Your task to perform on an android device: Show the shopping cart on bestbuy.com. Add logitech g502 to the cart on bestbuy.com, then select checkout. Image 0: 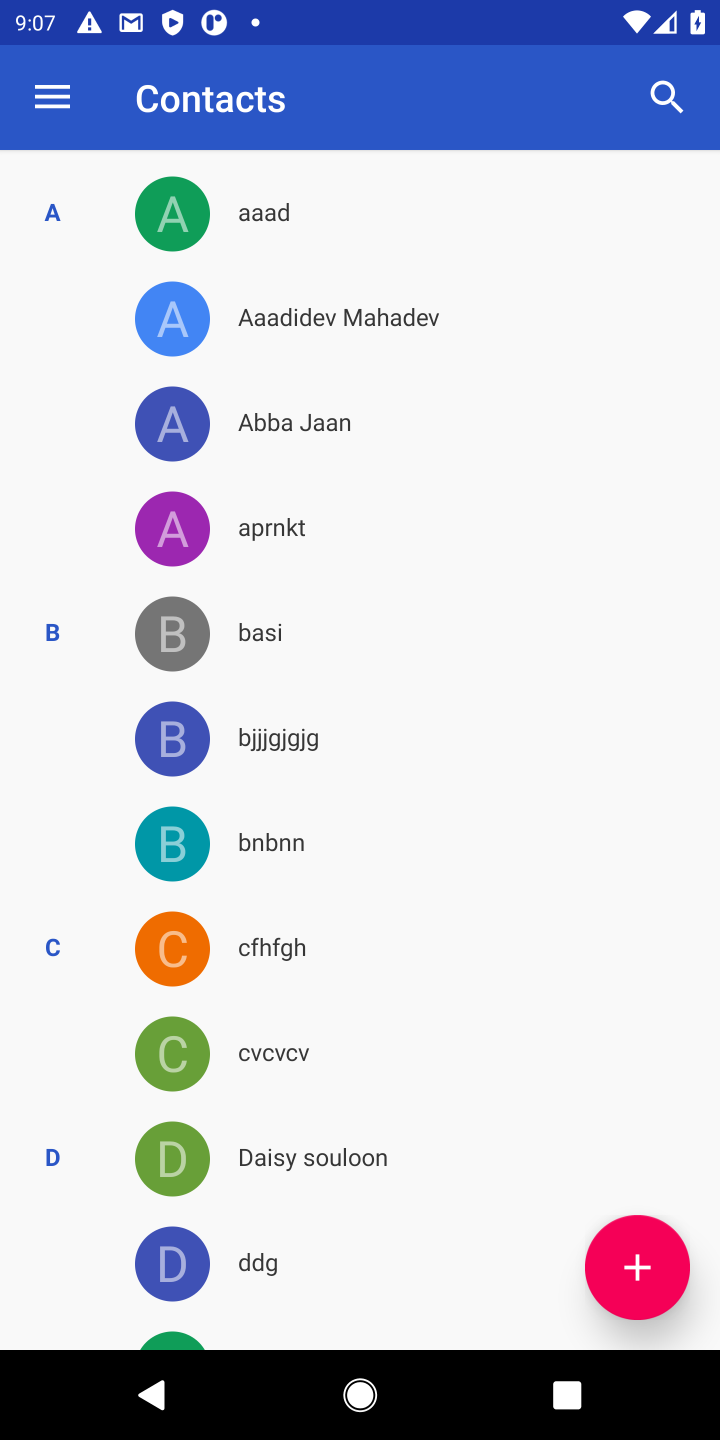
Step 0: press home button
Your task to perform on an android device: Show the shopping cart on bestbuy.com. Add logitech g502 to the cart on bestbuy.com, then select checkout. Image 1: 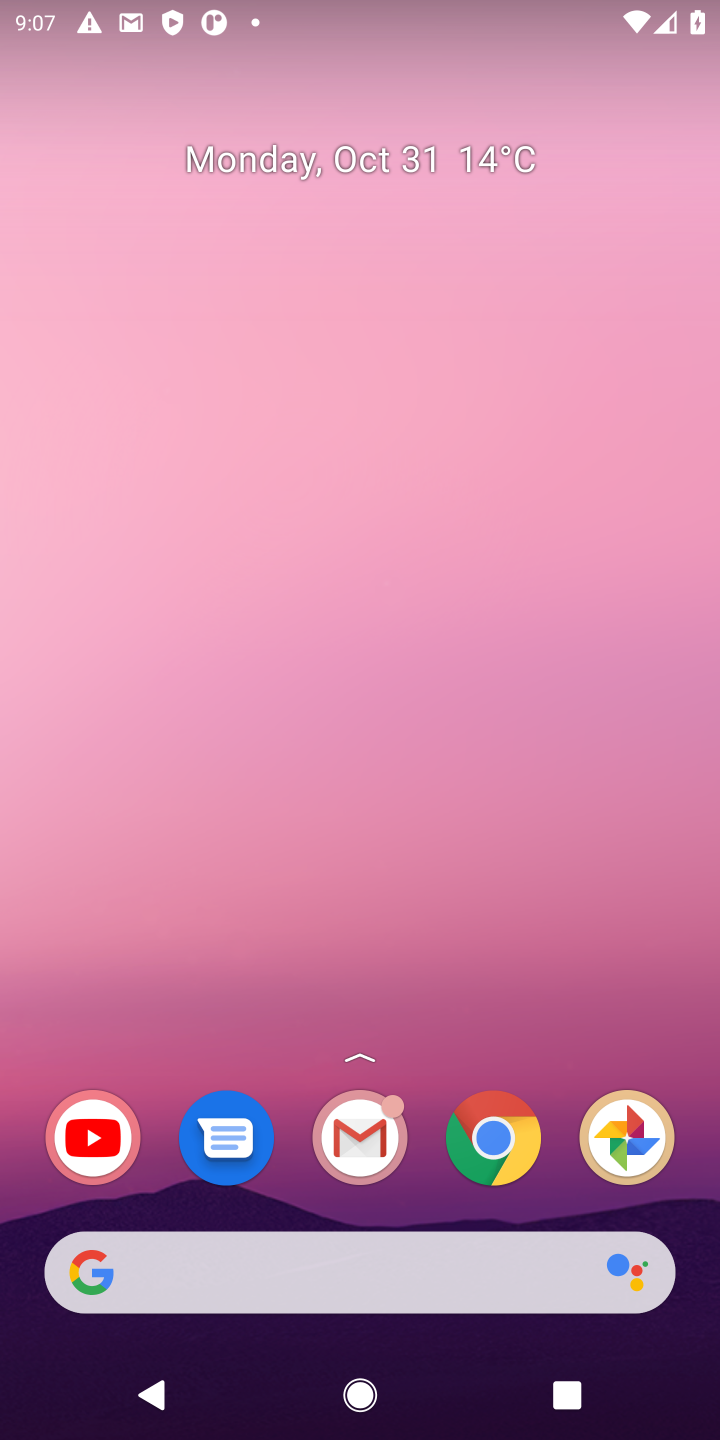
Step 1: click (495, 1147)
Your task to perform on an android device: Show the shopping cart on bestbuy.com. Add logitech g502 to the cart on bestbuy.com, then select checkout. Image 2: 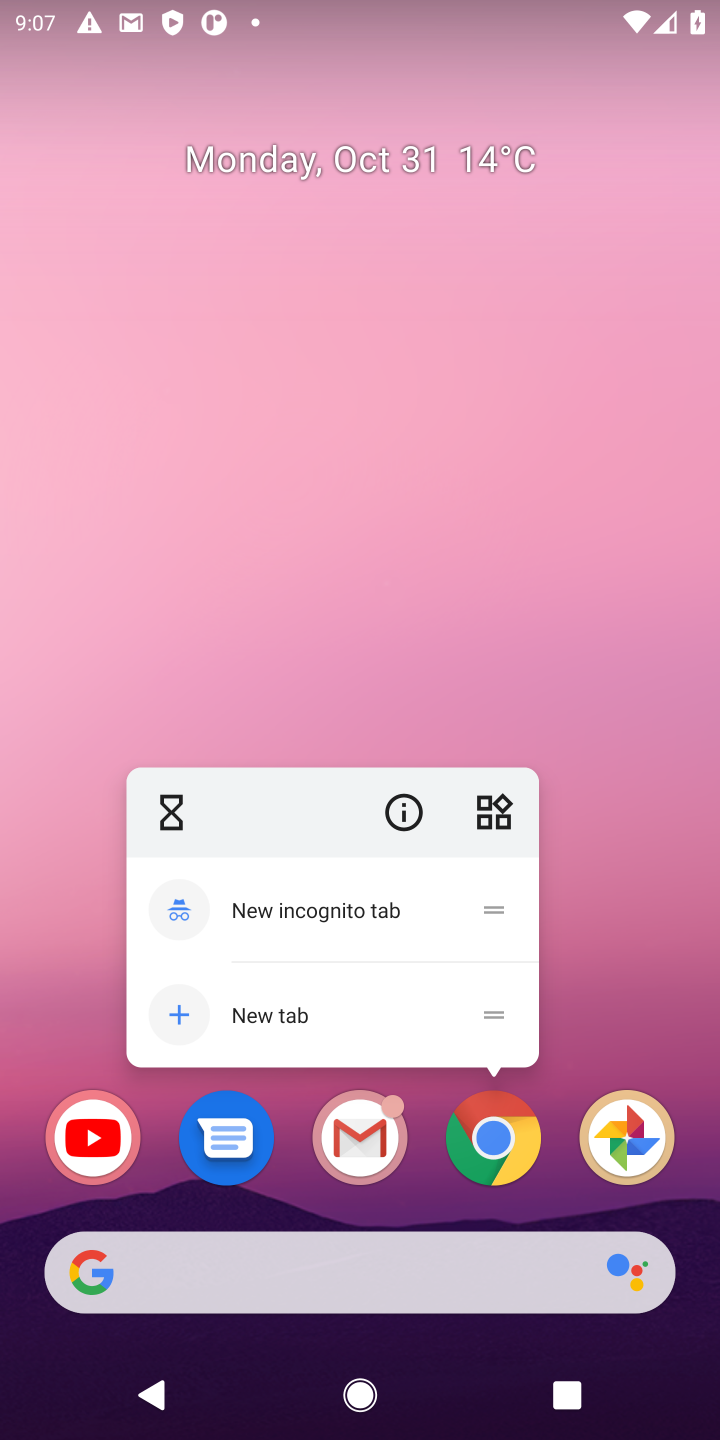
Step 2: click (502, 1152)
Your task to perform on an android device: Show the shopping cart on bestbuy.com. Add logitech g502 to the cart on bestbuy.com, then select checkout. Image 3: 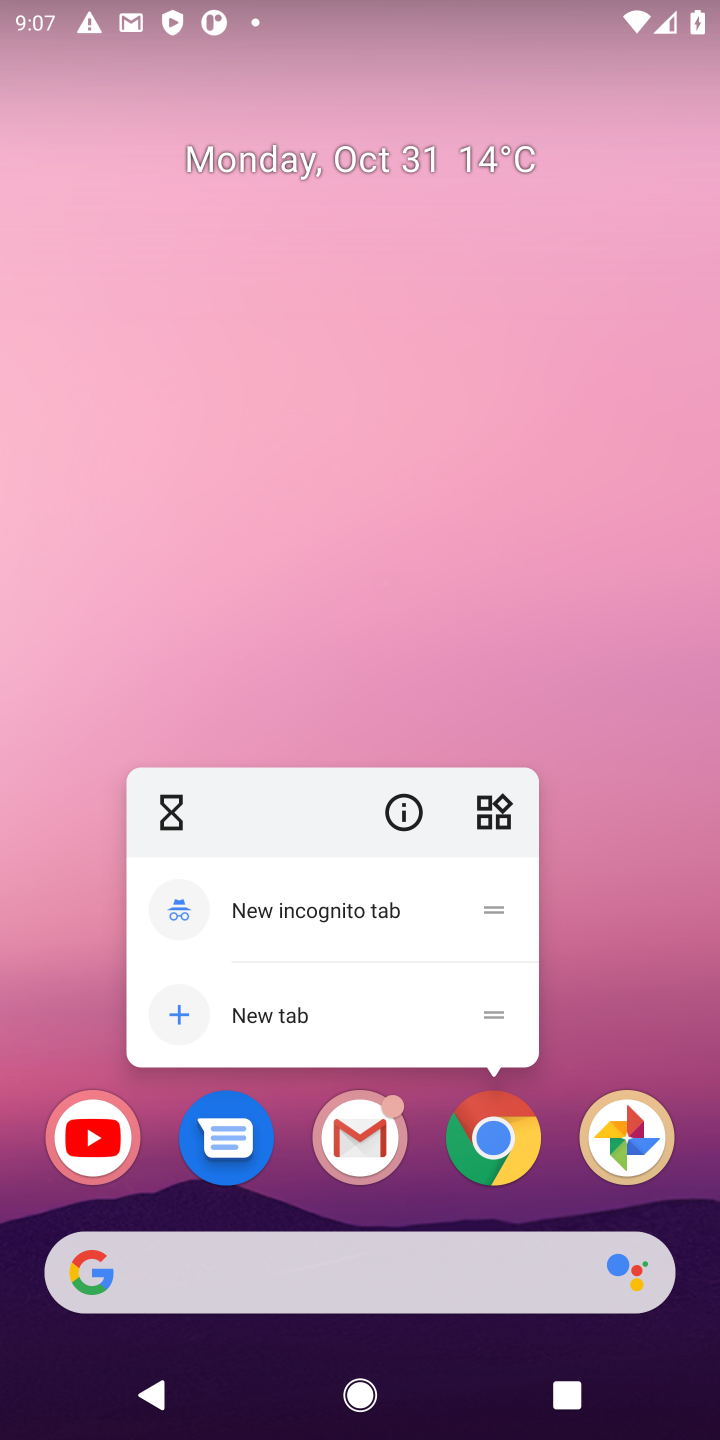
Step 3: press home button
Your task to perform on an android device: Show the shopping cart on bestbuy.com. Add logitech g502 to the cart on bestbuy.com, then select checkout. Image 4: 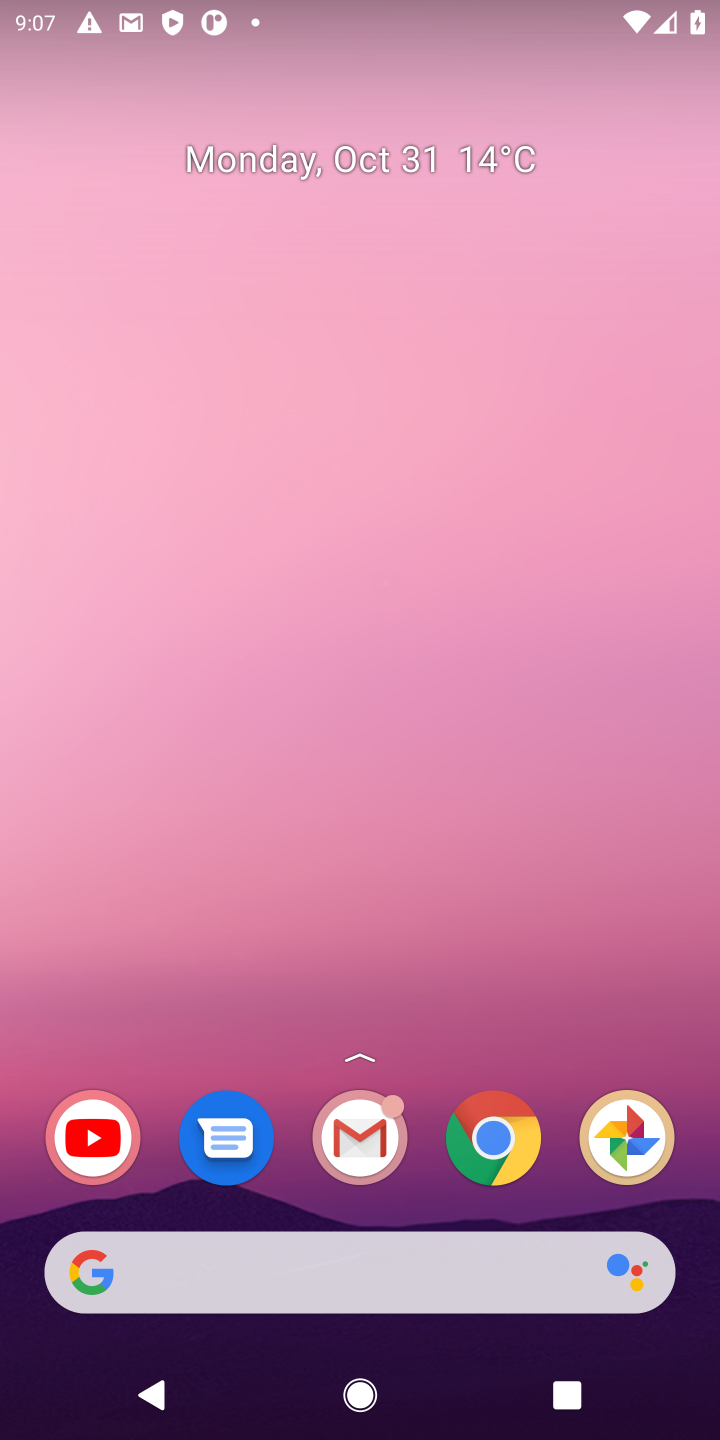
Step 4: press home button
Your task to perform on an android device: Show the shopping cart on bestbuy.com. Add logitech g502 to the cart on bestbuy.com, then select checkout. Image 5: 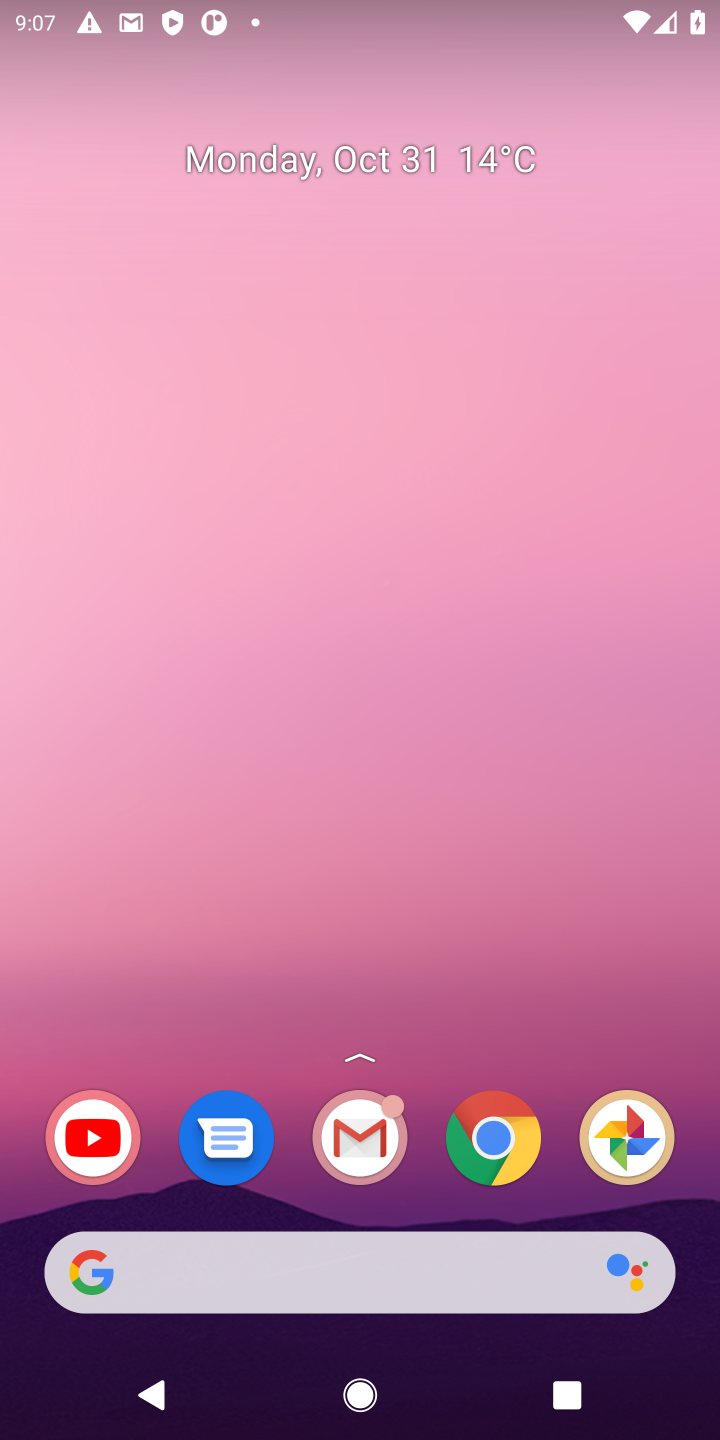
Step 5: press home button
Your task to perform on an android device: Show the shopping cart on bestbuy.com. Add logitech g502 to the cart on bestbuy.com, then select checkout. Image 6: 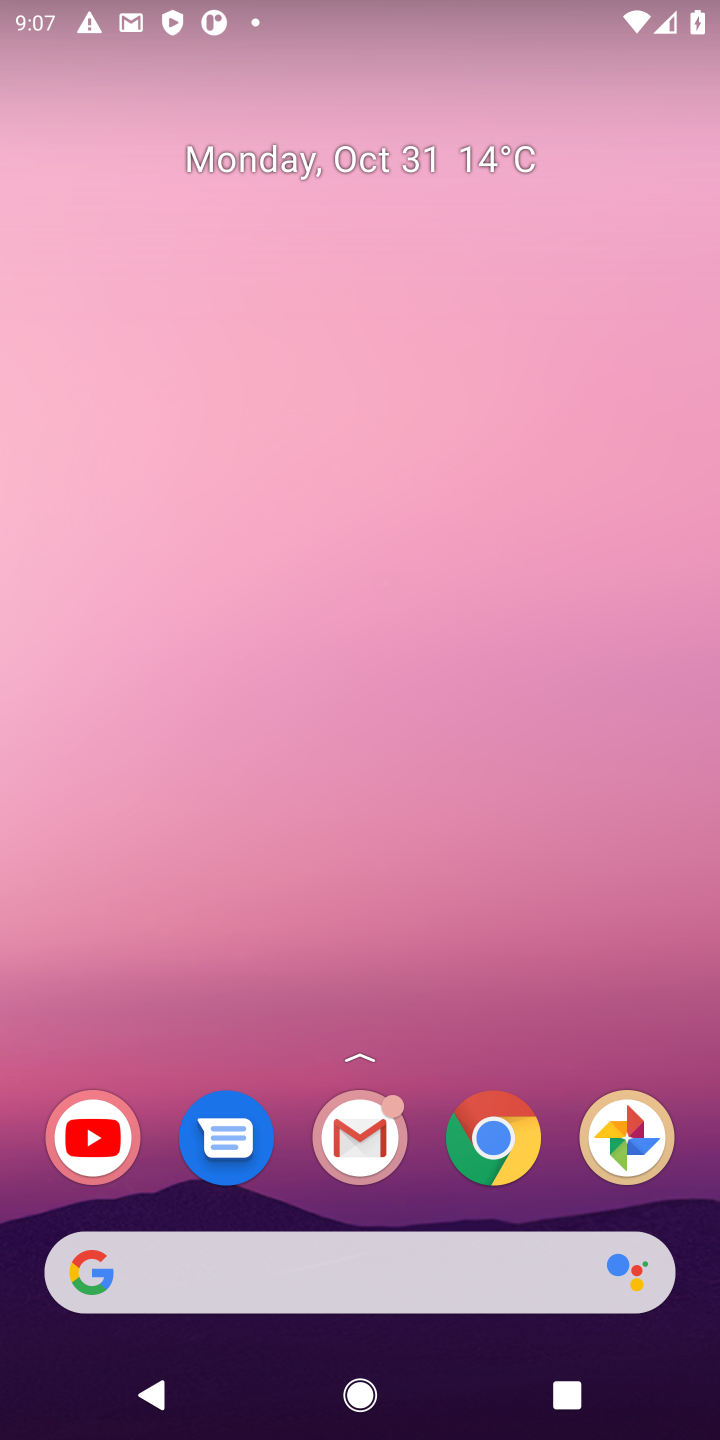
Step 6: click (497, 1130)
Your task to perform on an android device: Show the shopping cart on bestbuy.com. Add logitech g502 to the cart on bestbuy.com, then select checkout. Image 7: 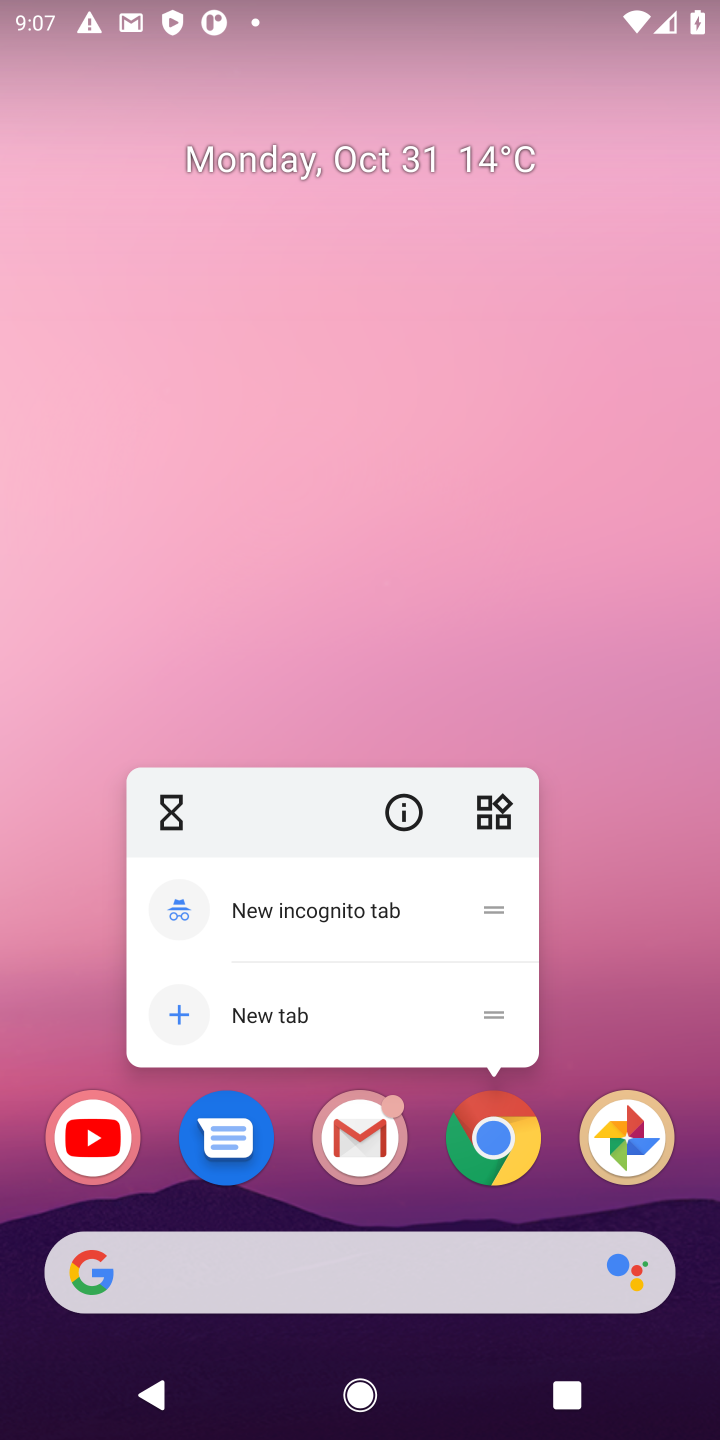
Step 7: click (493, 1130)
Your task to perform on an android device: Show the shopping cart on bestbuy.com. Add logitech g502 to the cart on bestbuy.com, then select checkout. Image 8: 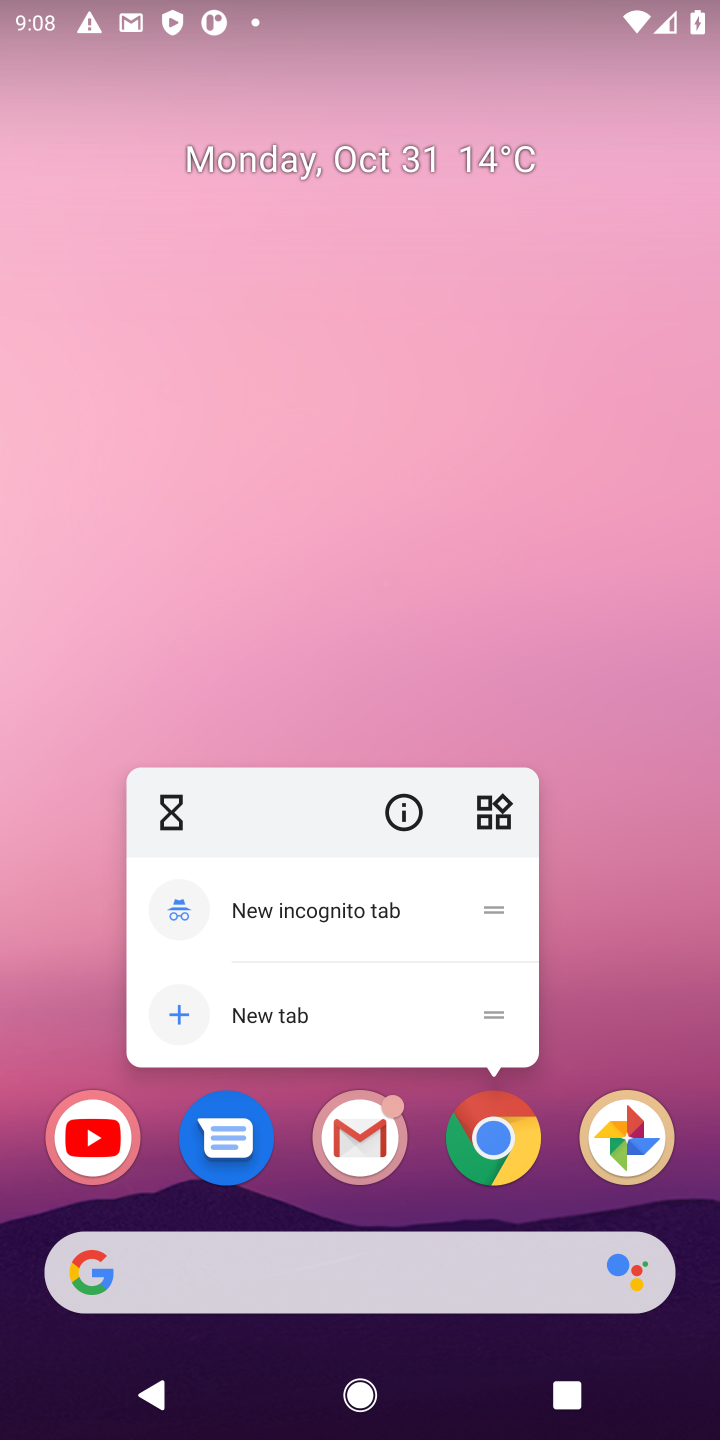
Step 8: press back button
Your task to perform on an android device: Show the shopping cart on bestbuy.com. Add logitech g502 to the cart on bestbuy.com, then select checkout. Image 9: 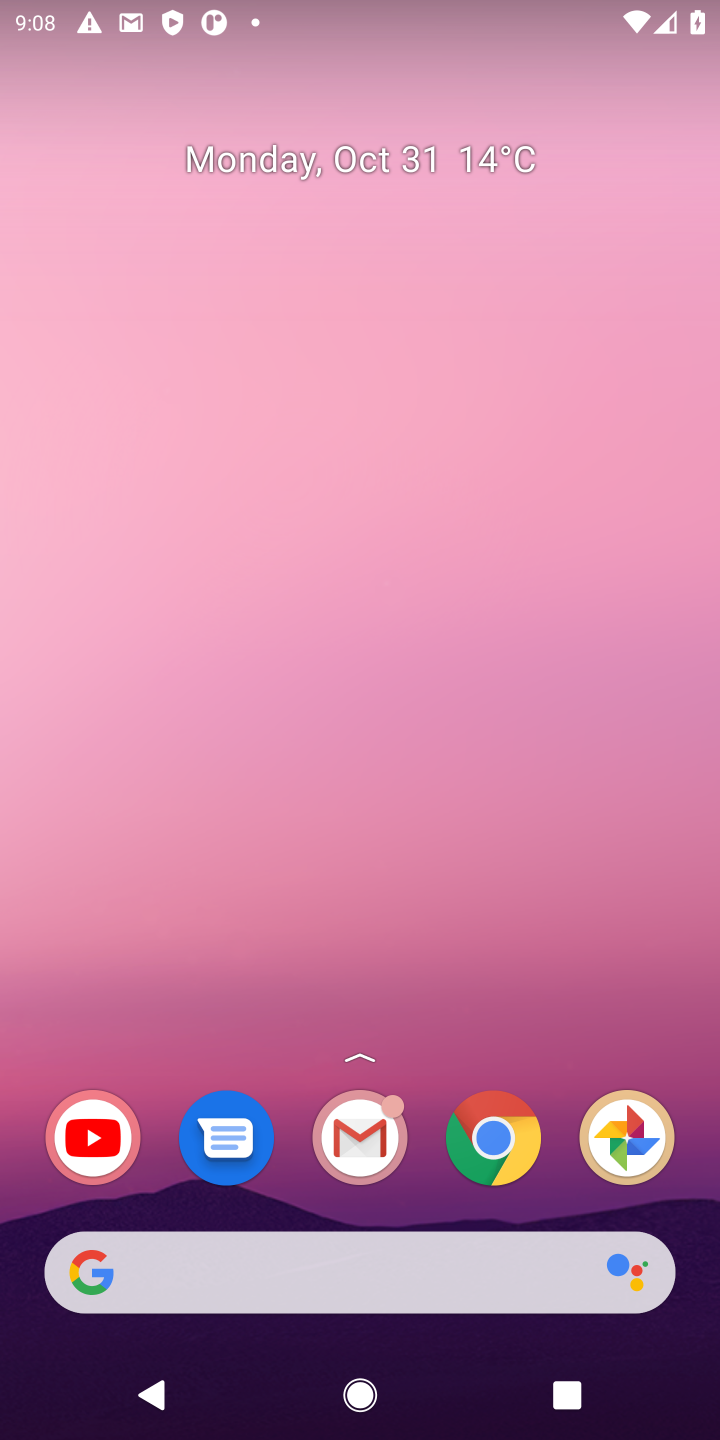
Step 9: press back button
Your task to perform on an android device: Show the shopping cart on bestbuy.com. Add logitech g502 to the cart on bestbuy.com, then select checkout. Image 10: 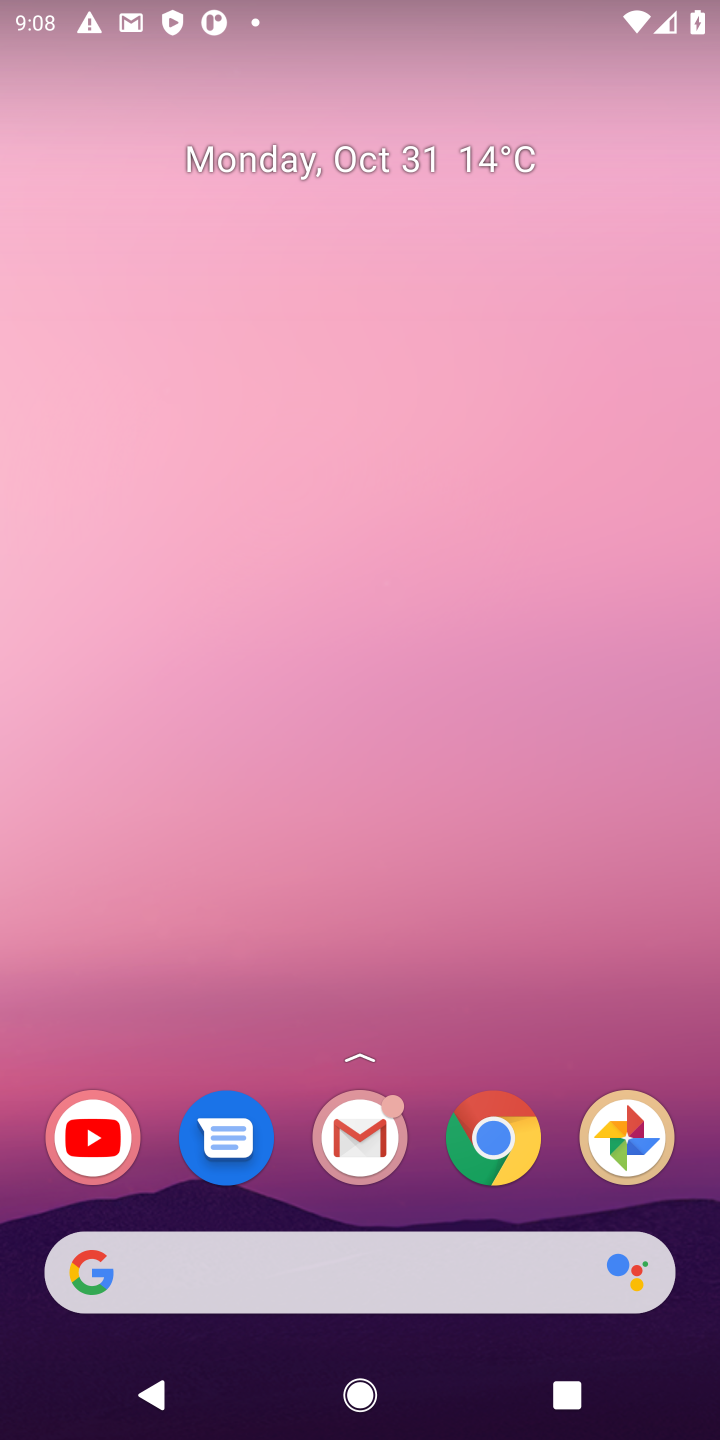
Step 10: press back button
Your task to perform on an android device: Show the shopping cart on bestbuy.com. Add logitech g502 to the cart on bestbuy.com, then select checkout. Image 11: 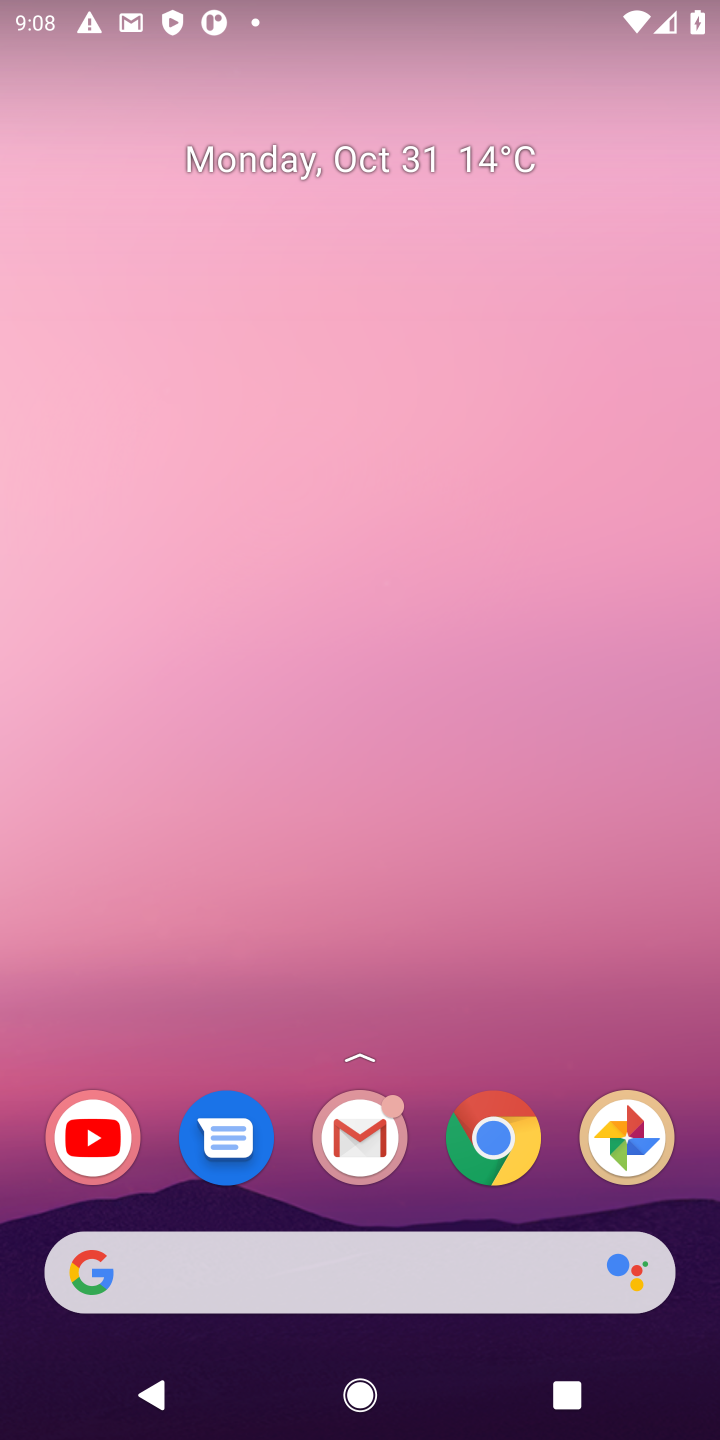
Step 11: press home button
Your task to perform on an android device: Show the shopping cart on bestbuy.com. Add logitech g502 to the cart on bestbuy.com, then select checkout. Image 12: 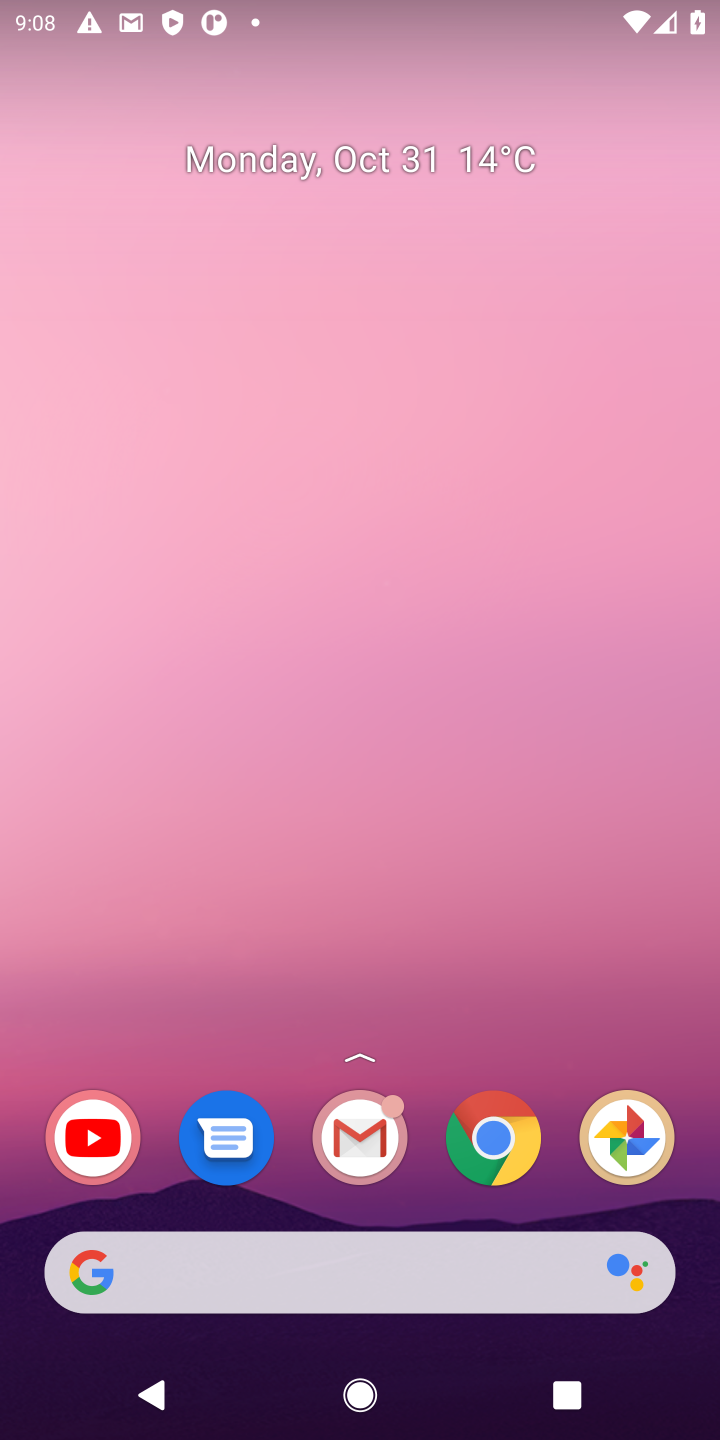
Step 12: press home button
Your task to perform on an android device: Show the shopping cart on bestbuy.com. Add logitech g502 to the cart on bestbuy.com, then select checkout. Image 13: 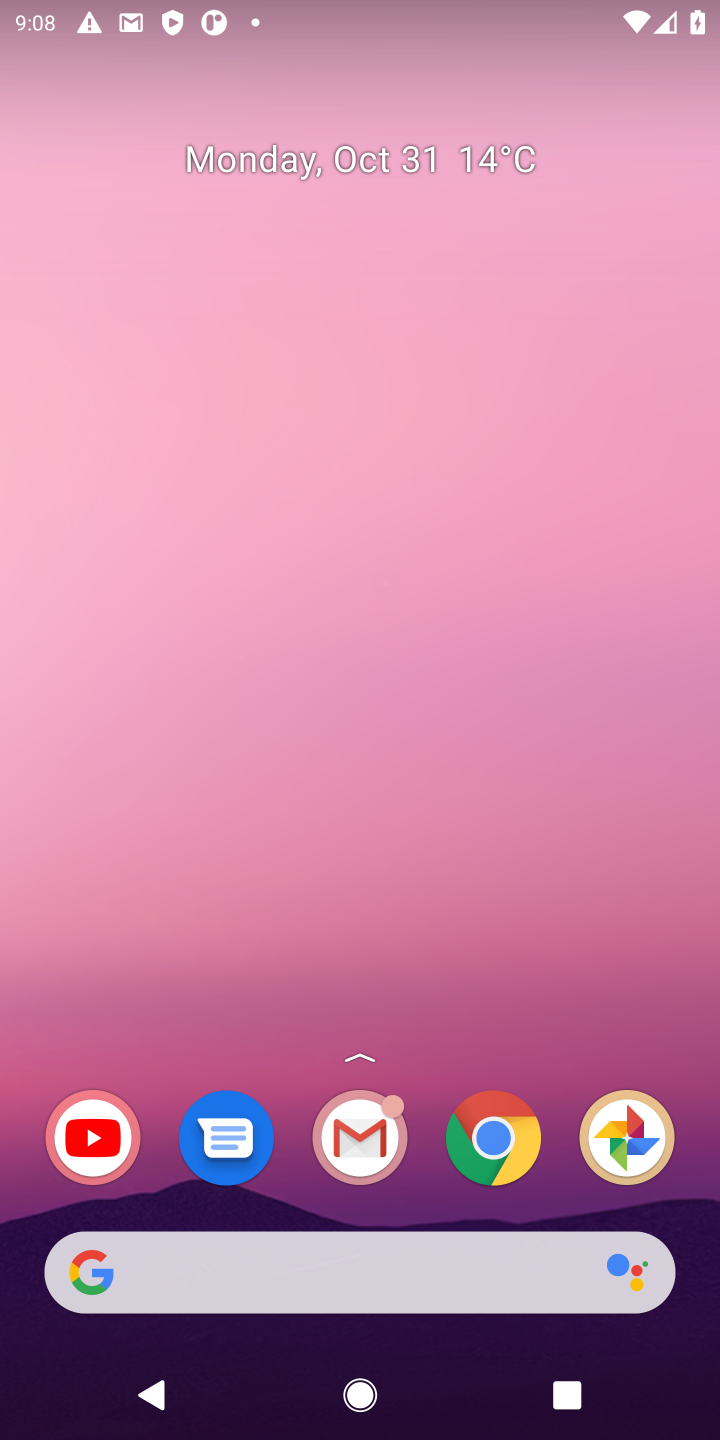
Step 13: click (491, 1160)
Your task to perform on an android device: Show the shopping cart on bestbuy.com. Add logitech g502 to the cart on bestbuy.com, then select checkout. Image 14: 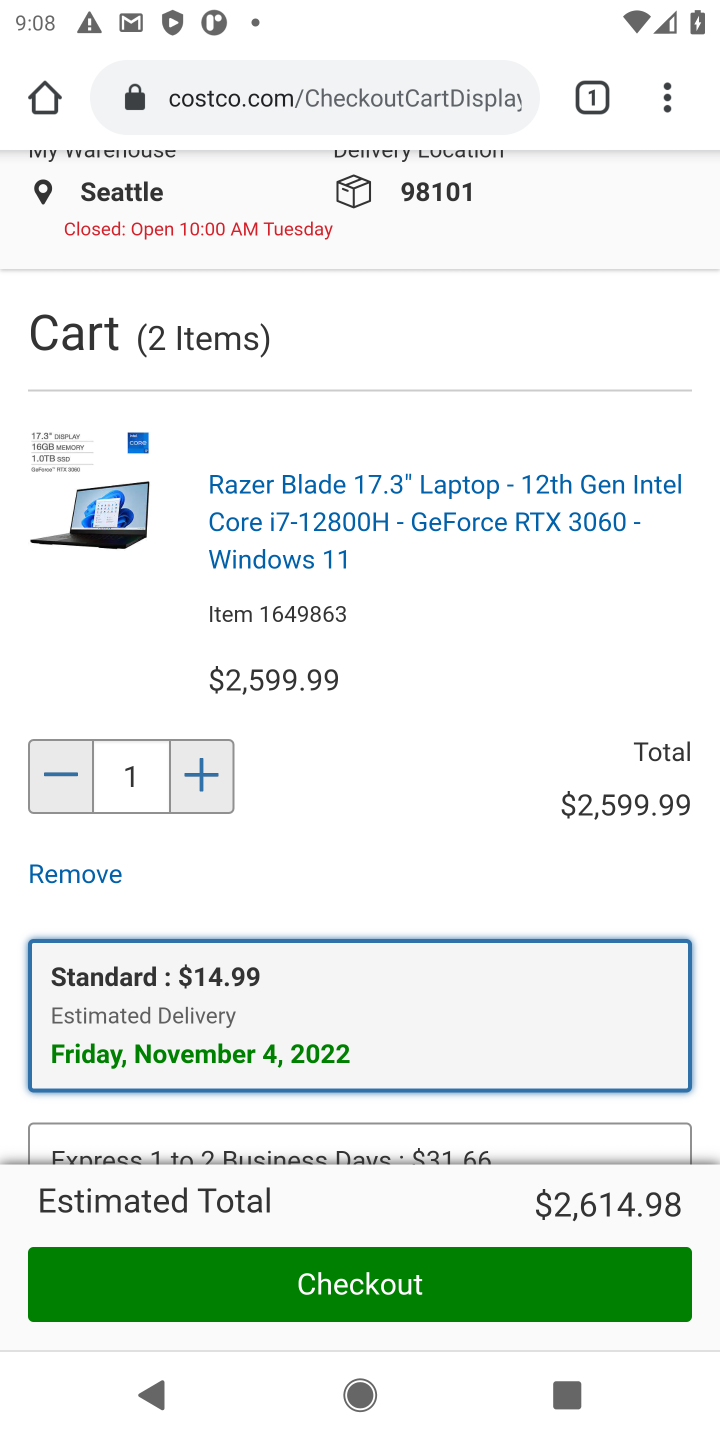
Step 14: click (276, 83)
Your task to perform on an android device: Show the shopping cart on bestbuy.com. Add logitech g502 to the cart on bestbuy.com, then select checkout. Image 15: 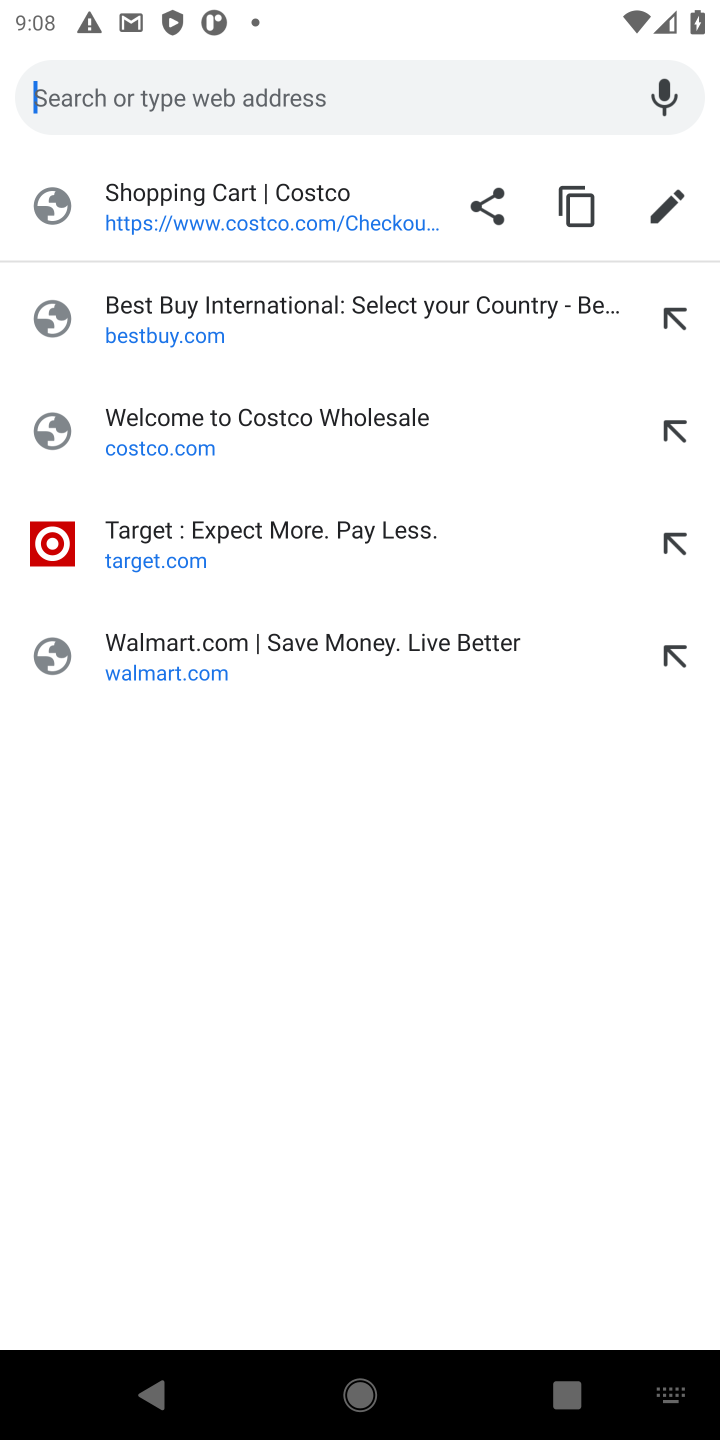
Step 15: type "best buy.com"
Your task to perform on an android device: Show the shopping cart on bestbuy.com. Add logitech g502 to the cart on bestbuy.com, then select checkout. Image 16: 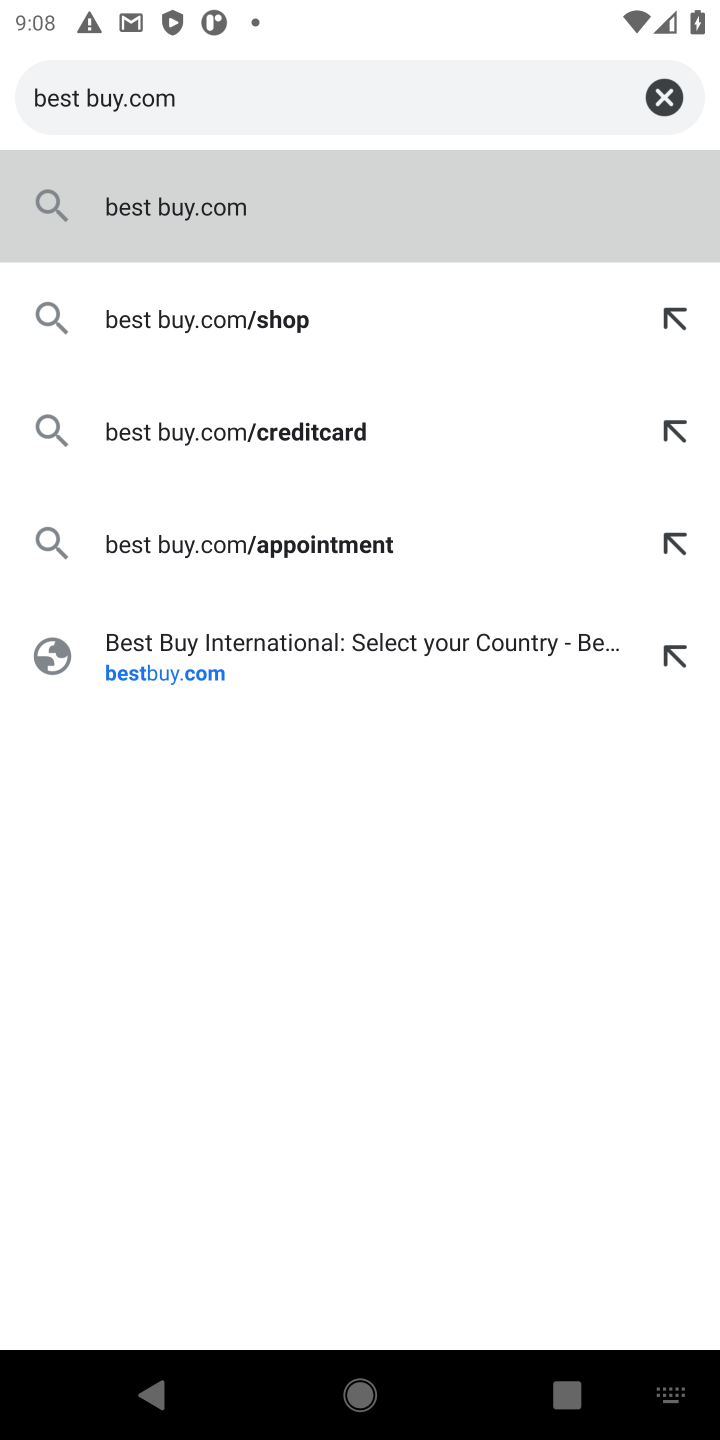
Step 16: click (165, 664)
Your task to perform on an android device: Show the shopping cart on bestbuy.com. Add logitech g502 to the cart on bestbuy.com, then select checkout. Image 17: 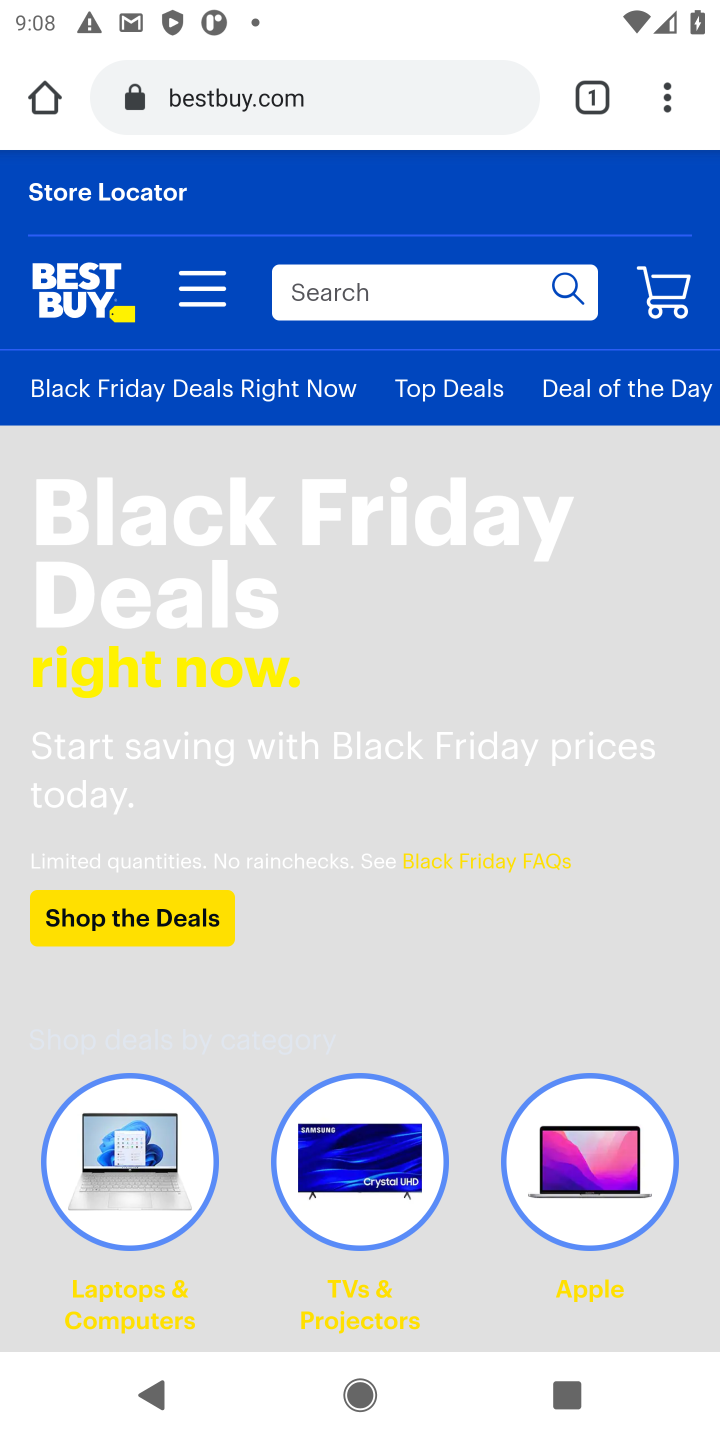
Step 17: click (310, 294)
Your task to perform on an android device: Show the shopping cart on bestbuy.com. Add logitech g502 to the cart on bestbuy.com, then select checkout. Image 18: 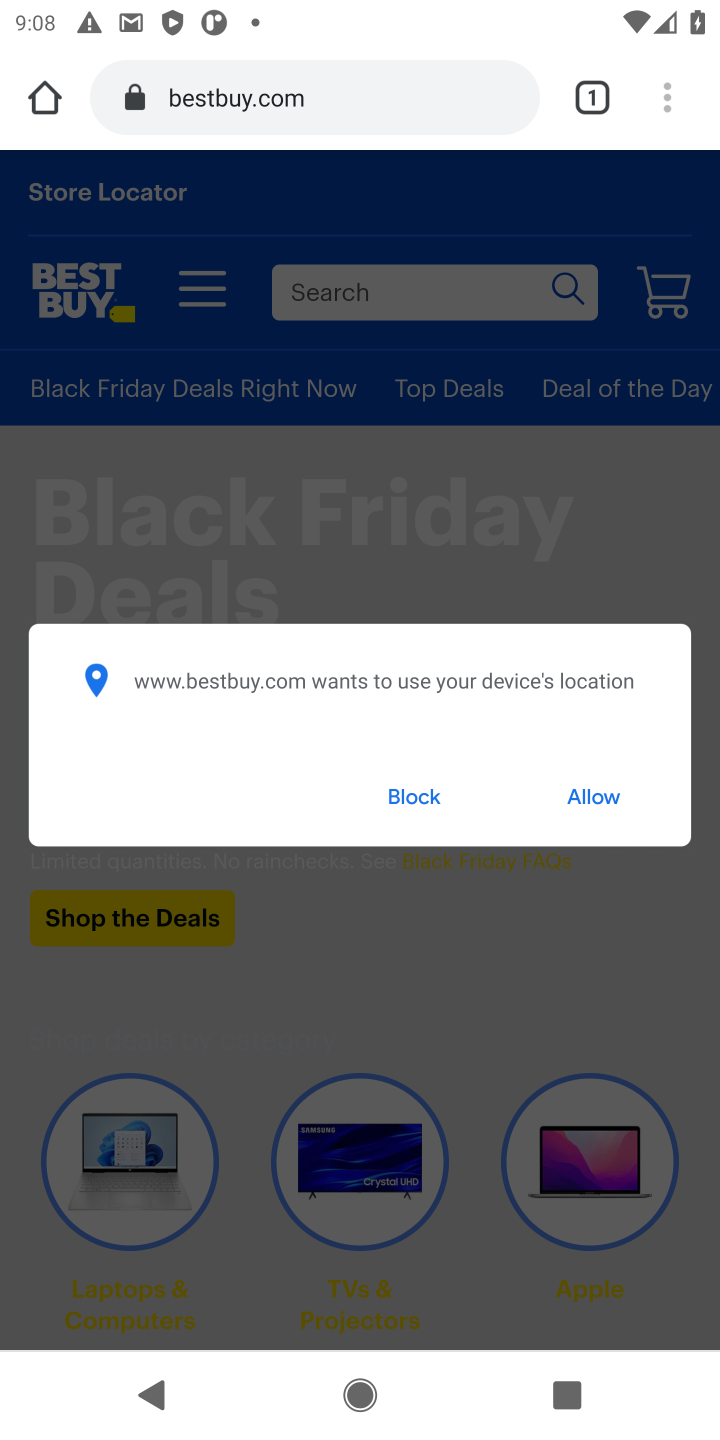
Step 18: click (586, 798)
Your task to perform on an android device: Show the shopping cart on bestbuy.com. Add logitech g502 to the cart on bestbuy.com, then select checkout. Image 19: 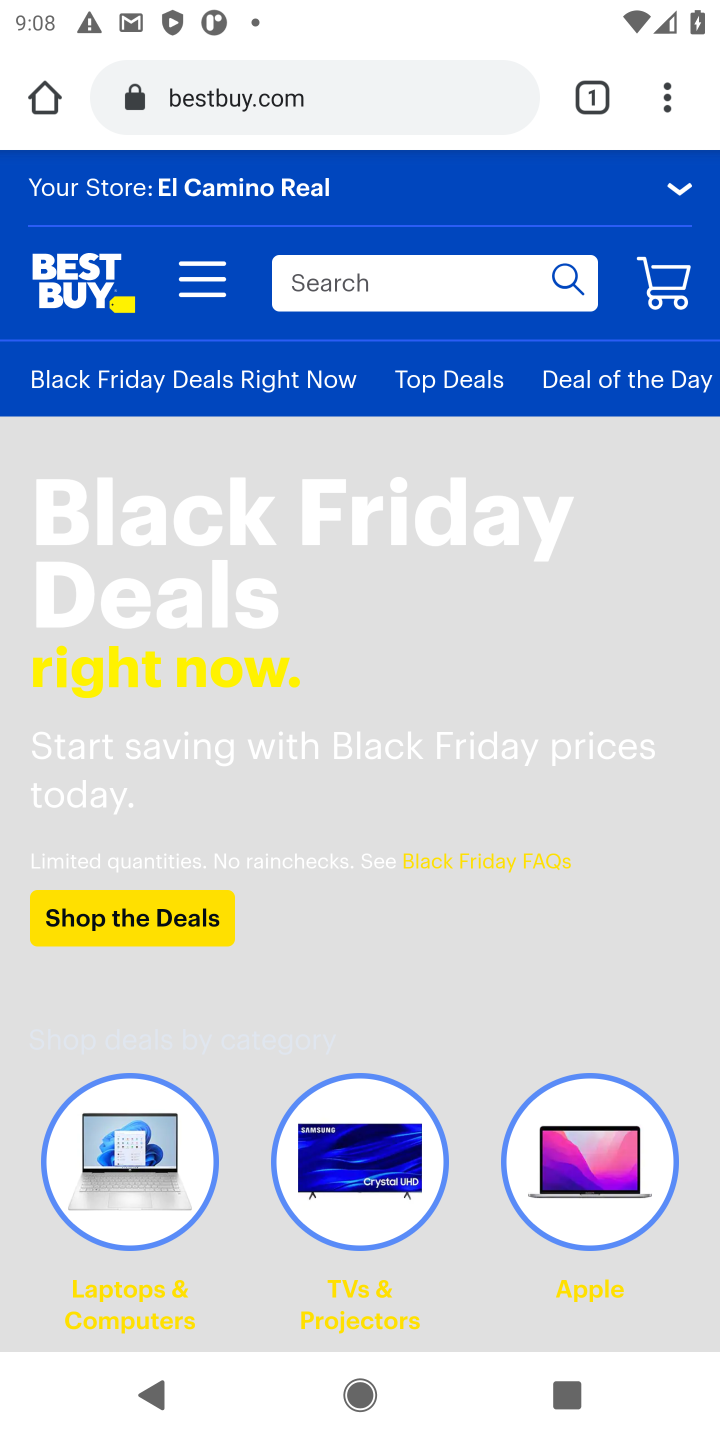
Step 19: click (426, 280)
Your task to perform on an android device: Show the shopping cart on bestbuy.com. Add logitech g502 to the cart on bestbuy.com, then select checkout. Image 20: 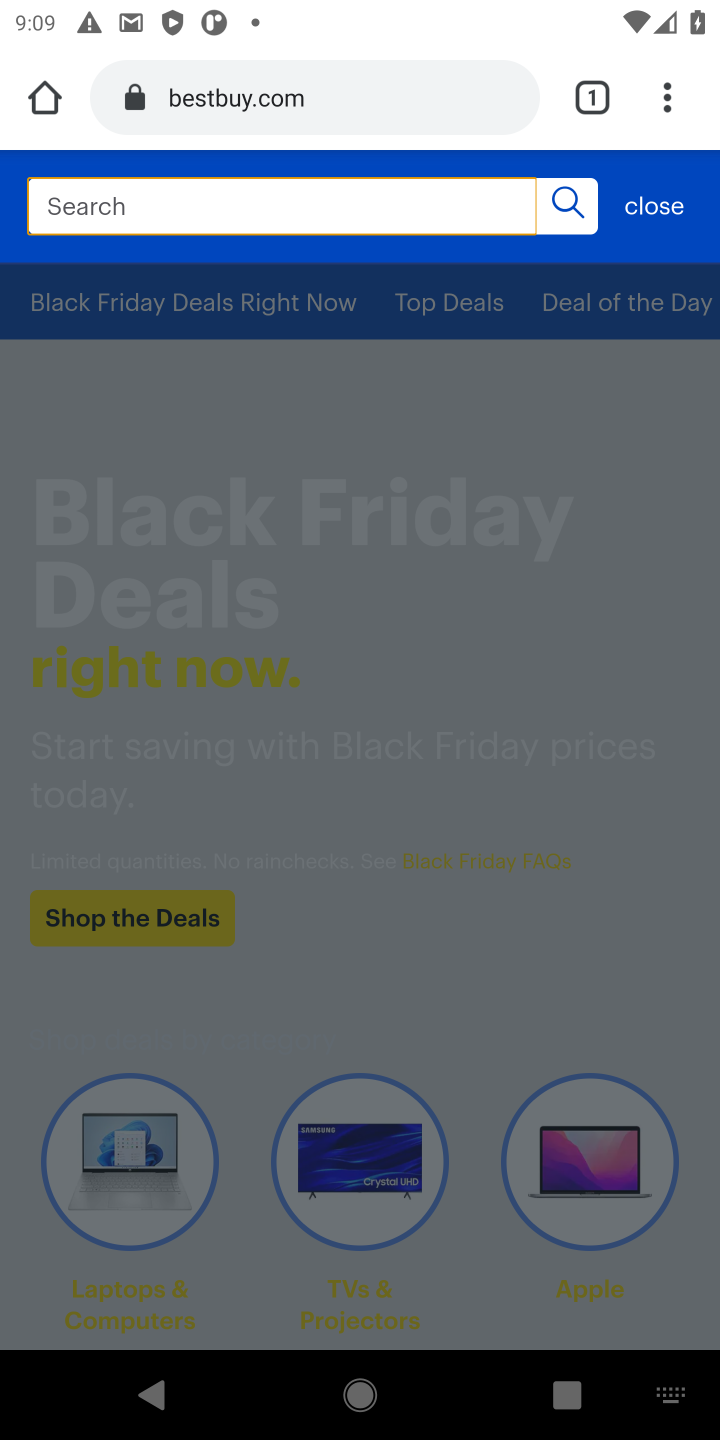
Step 20: type "logitechg502"
Your task to perform on an android device: Show the shopping cart on bestbuy.com. Add logitech g502 to the cart on bestbuy.com, then select checkout. Image 21: 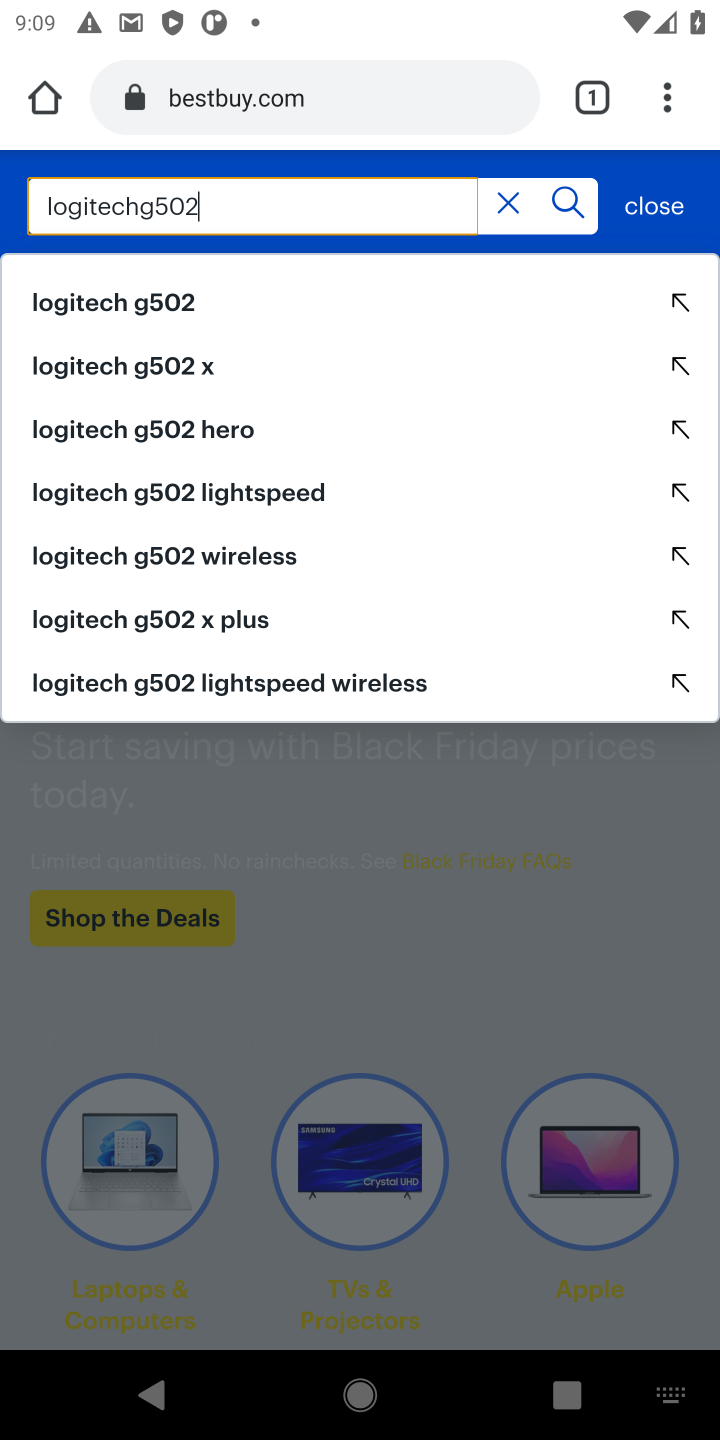
Step 21: click (153, 300)
Your task to perform on an android device: Show the shopping cart on bestbuy.com. Add logitech g502 to the cart on bestbuy.com, then select checkout. Image 22: 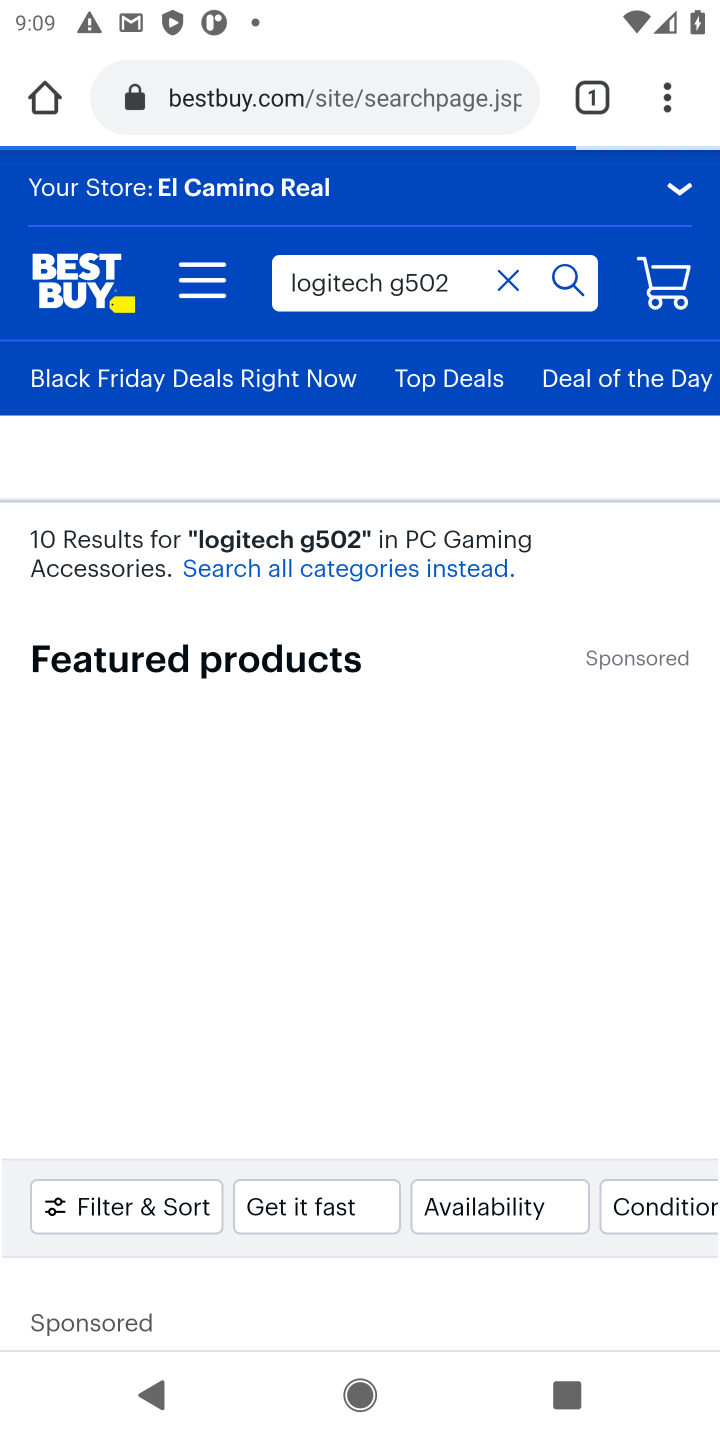
Step 22: drag from (270, 856) to (243, 615)
Your task to perform on an android device: Show the shopping cart on bestbuy.com. Add logitech g502 to the cart on bestbuy.com, then select checkout. Image 23: 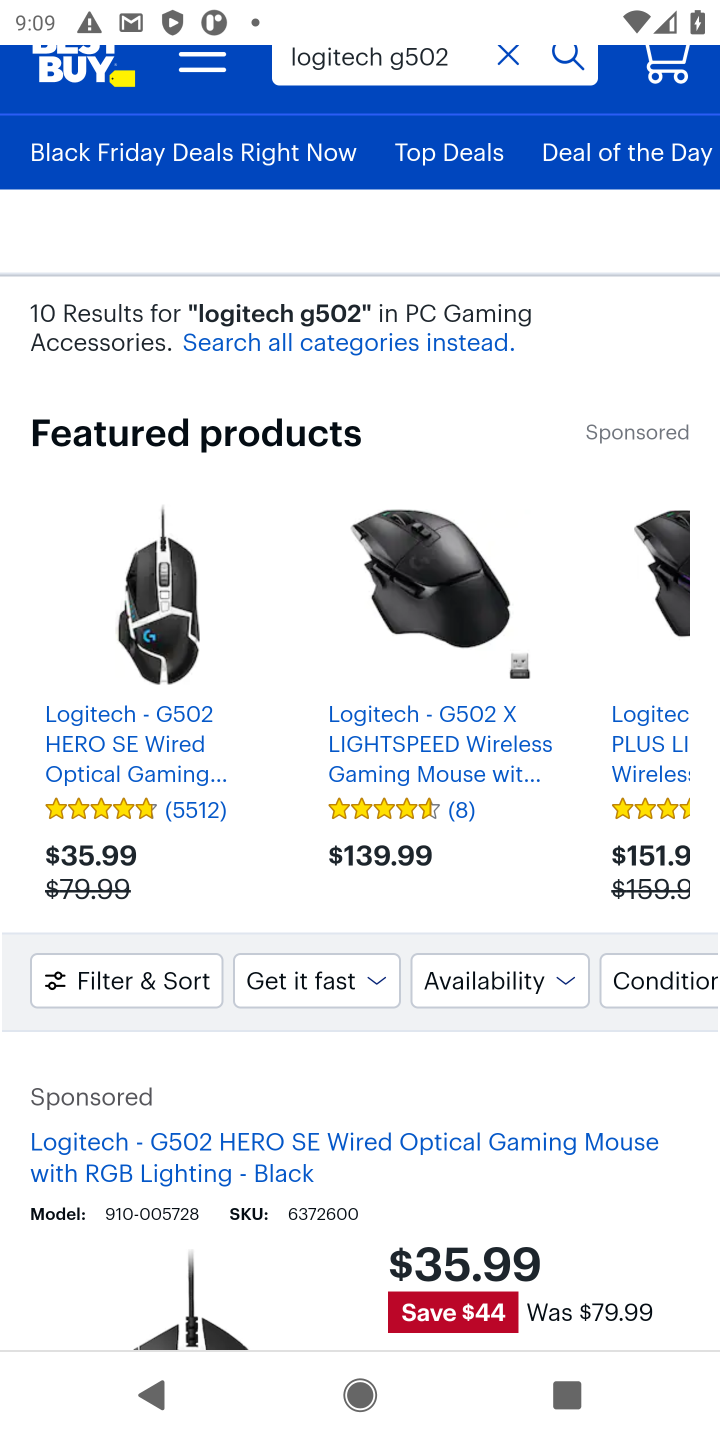
Step 23: click (387, 706)
Your task to perform on an android device: Show the shopping cart on bestbuy.com. Add logitech g502 to the cart on bestbuy.com, then select checkout. Image 24: 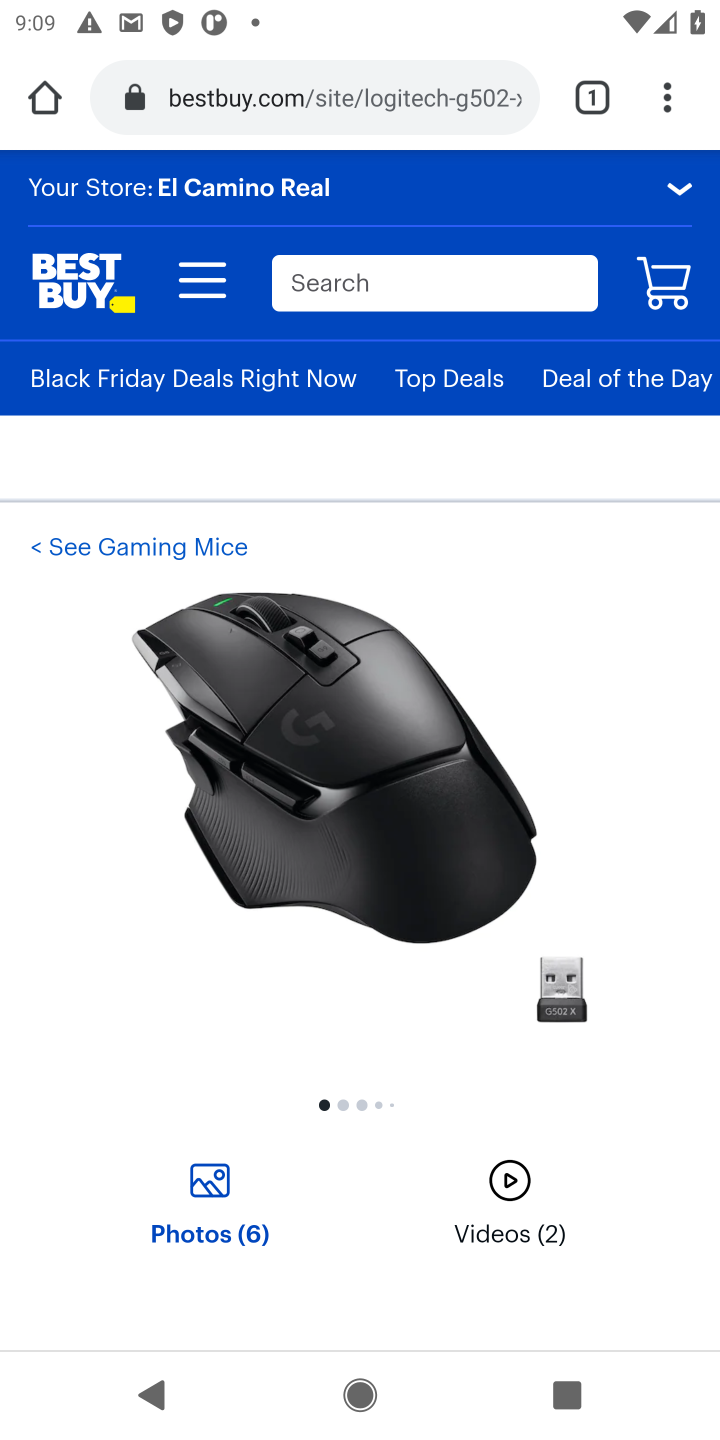
Step 24: drag from (383, 1052) to (338, 531)
Your task to perform on an android device: Show the shopping cart on bestbuy.com. Add logitech g502 to the cart on bestbuy.com, then select checkout. Image 25: 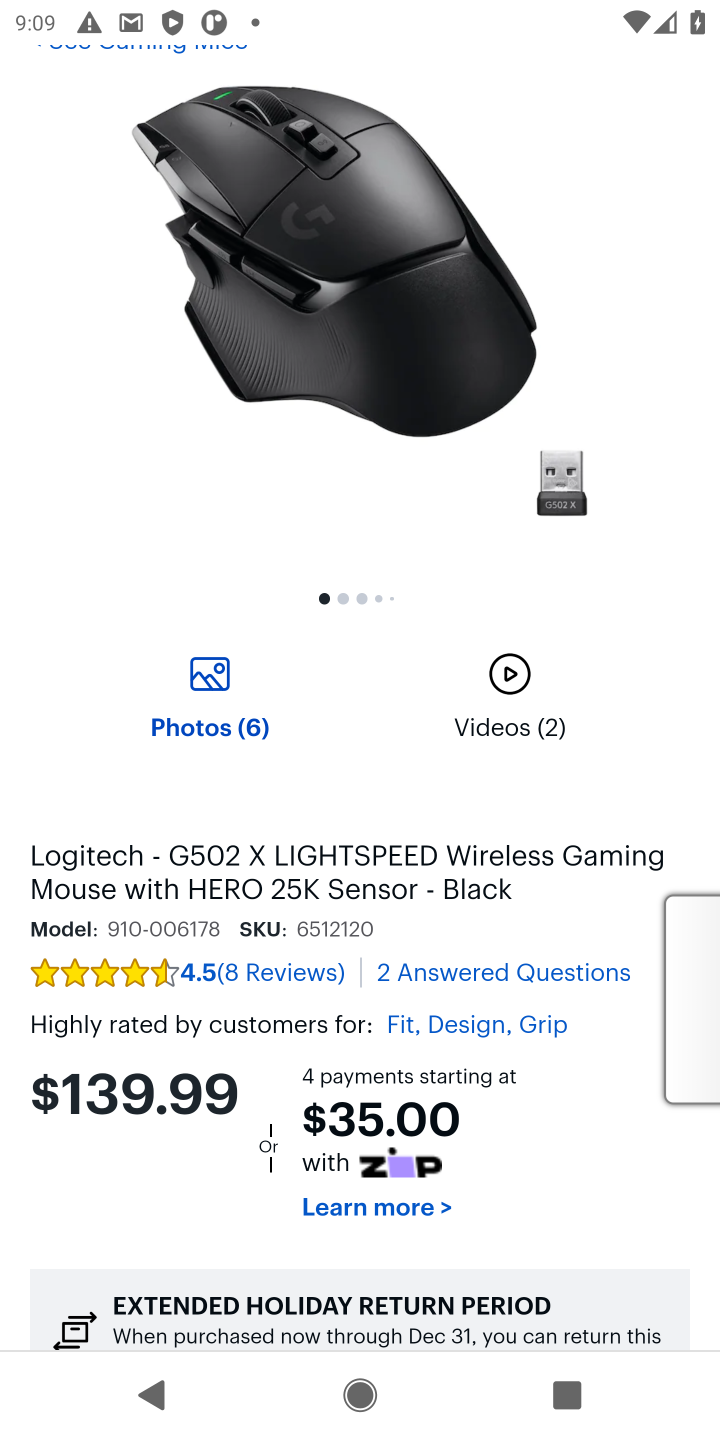
Step 25: drag from (189, 1092) to (155, 613)
Your task to perform on an android device: Show the shopping cart on bestbuy.com. Add logitech g502 to the cart on bestbuy.com, then select checkout. Image 26: 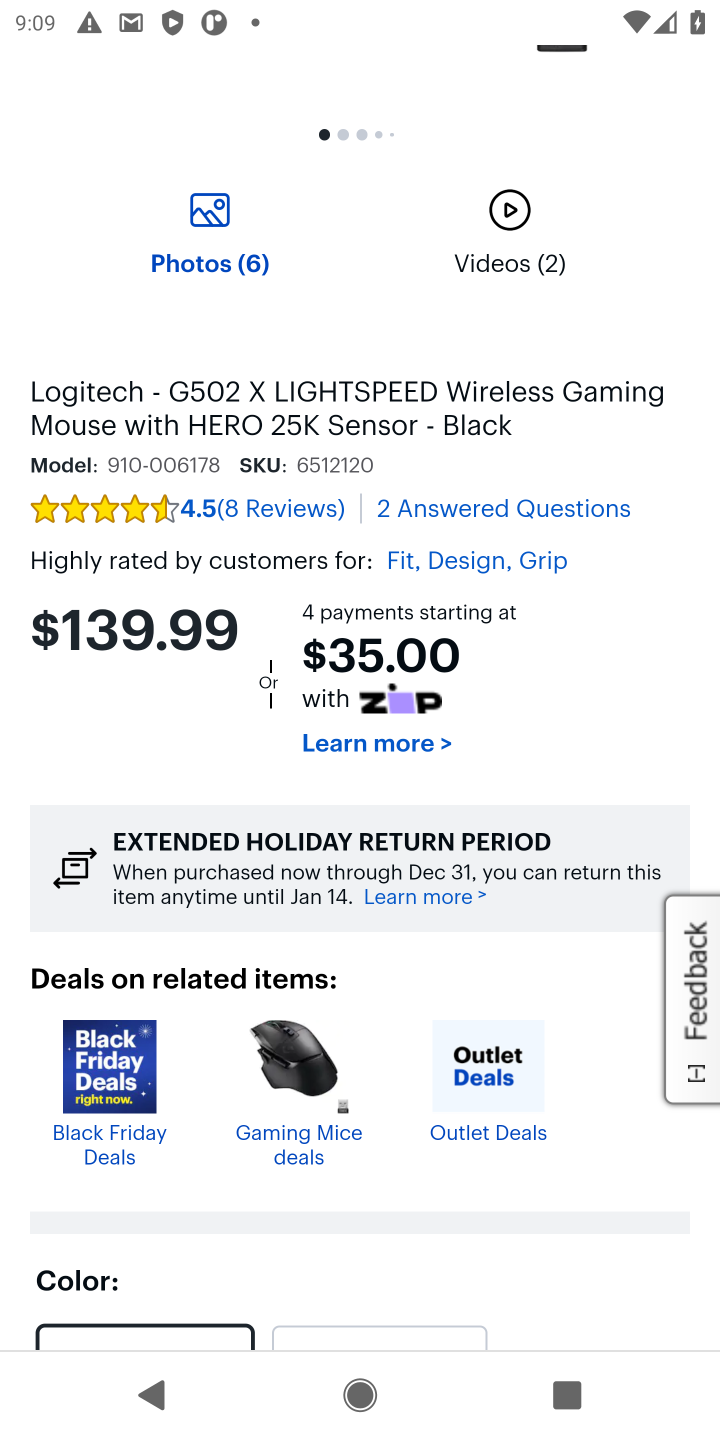
Step 26: click (296, 370)
Your task to perform on an android device: Show the shopping cart on bestbuy.com. Add logitech g502 to the cart on bestbuy.com, then select checkout. Image 27: 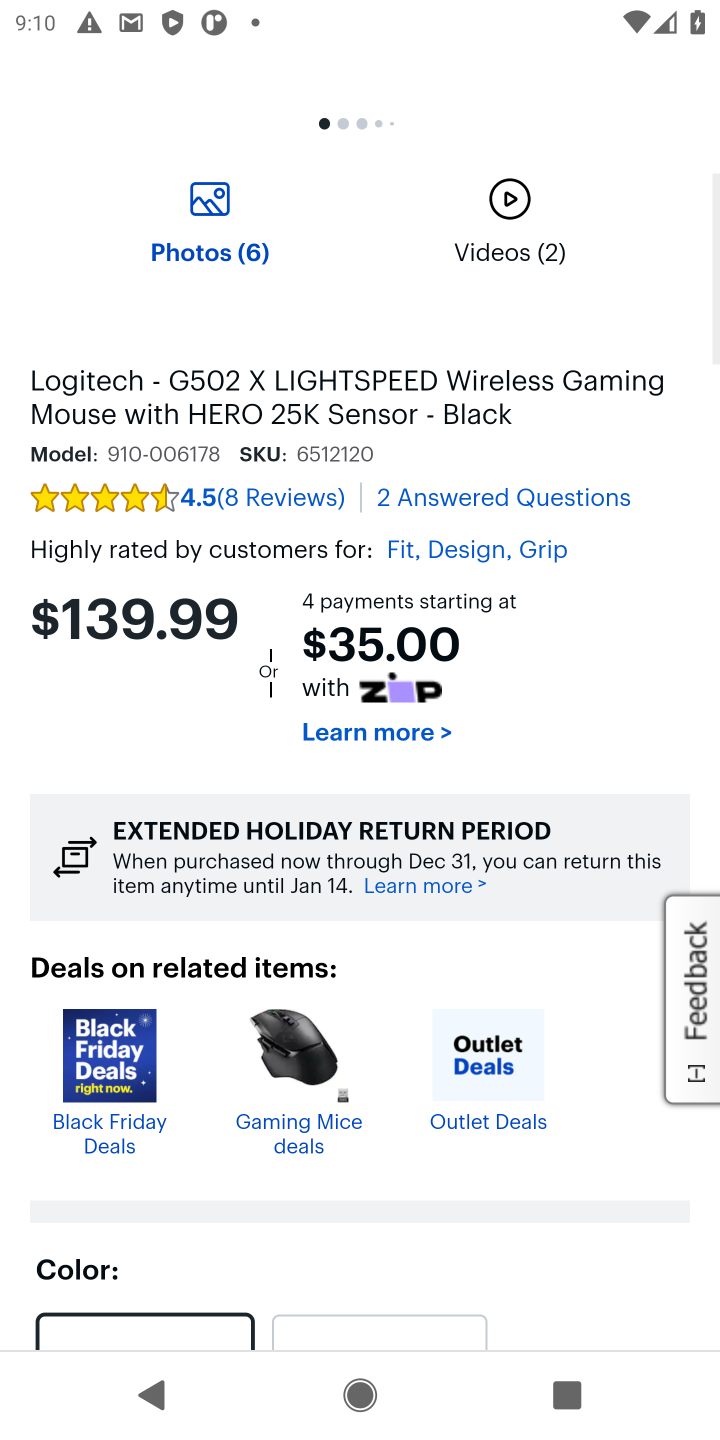
Step 27: drag from (394, 1075) to (335, 451)
Your task to perform on an android device: Show the shopping cart on bestbuy.com. Add logitech g502 to the cart on bestbuy.com, then select checkout. Image 28: 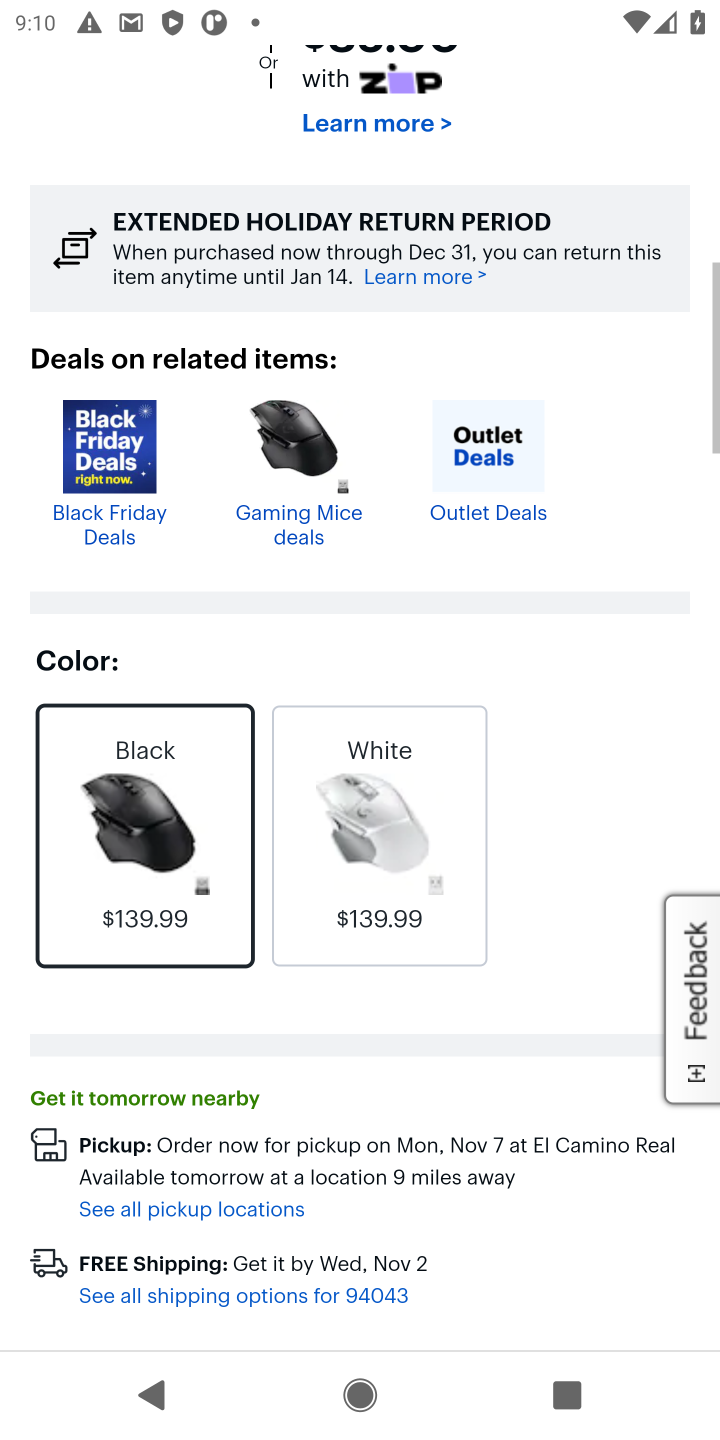
Step 28: drag from (393, 1009) to (371, 813)
Your task to perform on an android device: Show the shopping cart on bestbuy.com. Add logitech g502 to the cart on bestbuy.com, then select checkout. Image 29: 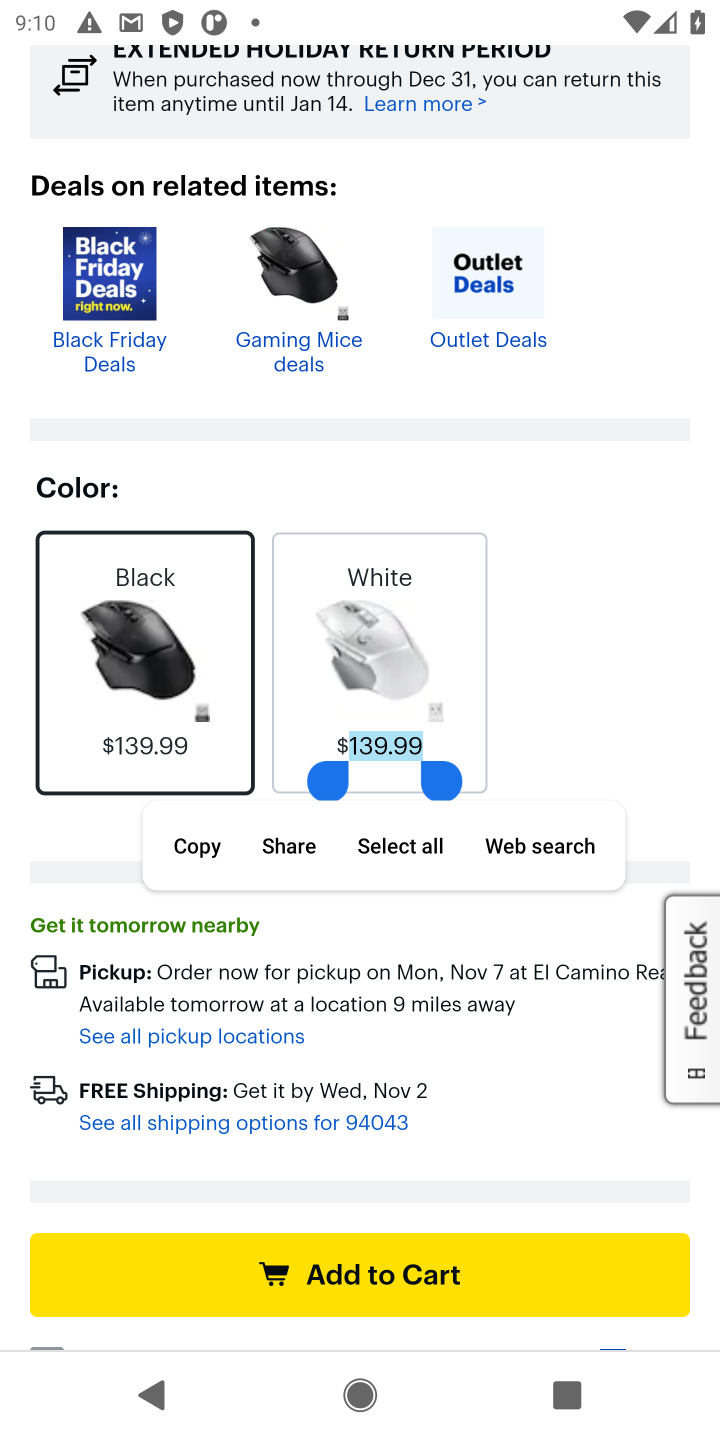
Step 29: drag from (329, 1010) to (327, 439)
Your task to perform on an android device: Show the shopping cart on bestbuy.com. Add logitech g502 to the cart on bestbuy.com, then select checkout. Image 30: 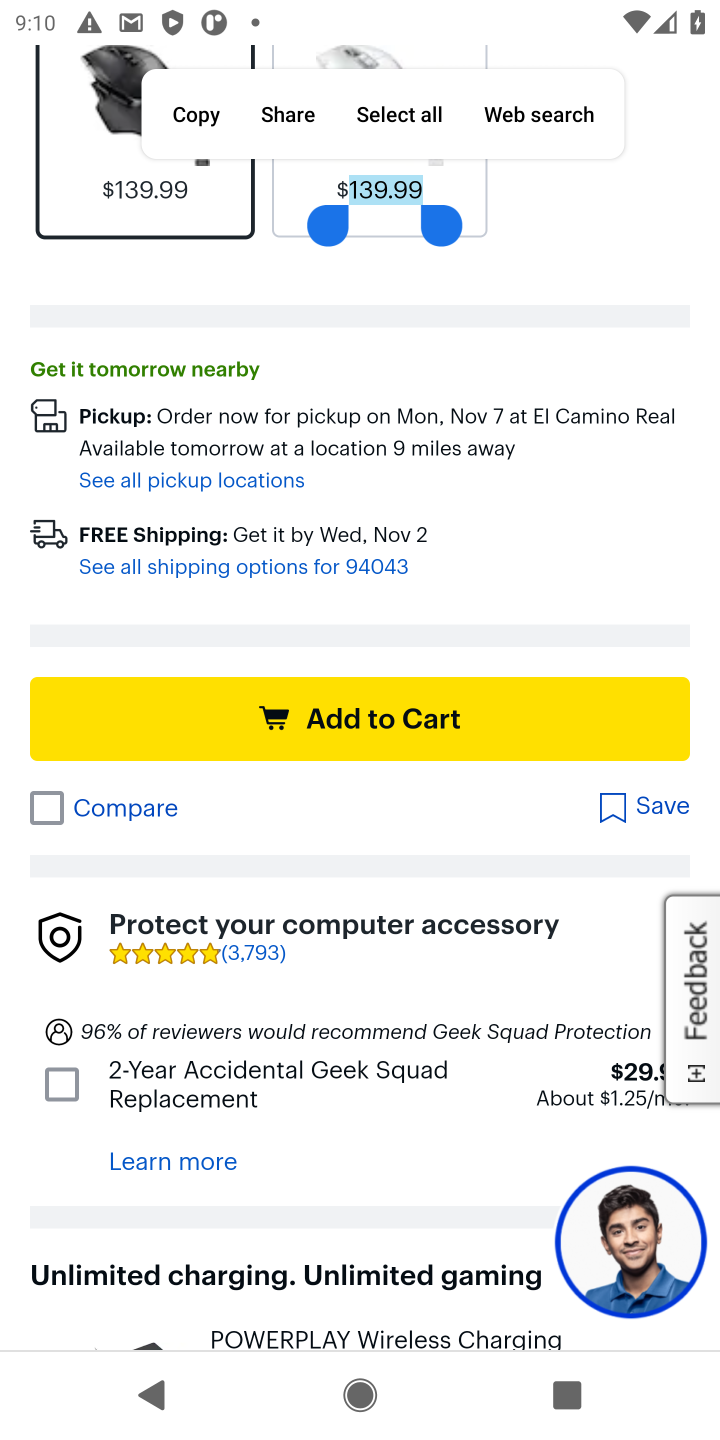
Step 30: click (347, 702)
Your task to perform on an android device: Show the shopping cart on bestbuy.com. Add logitech g502 to the cart on bestbuy.com, then select checkout. Image 31: 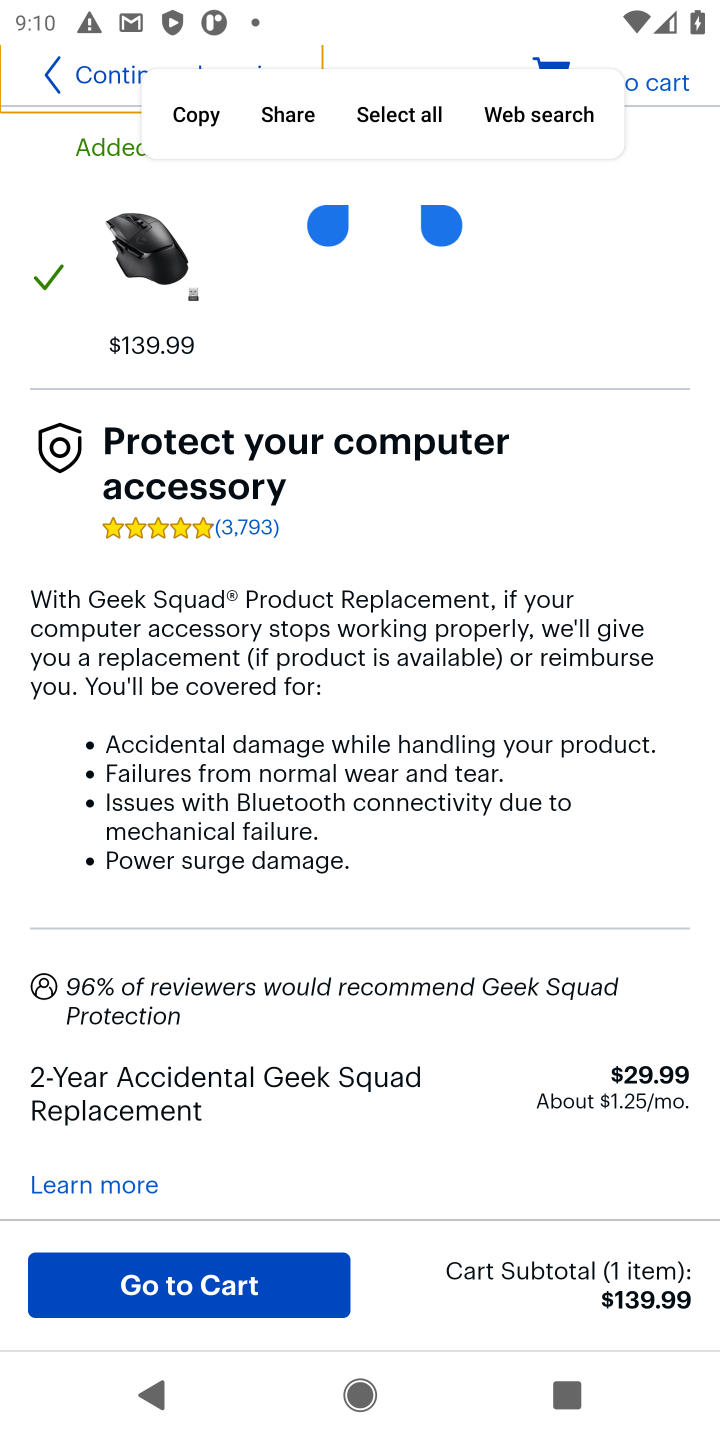
Step 31: click (190, 1280)
Your task to perform on an android device: Show the shopping cart on bestbuy.com. Add logitech g502 to the cart on bestbuy.com, then select checkout. Image 32: 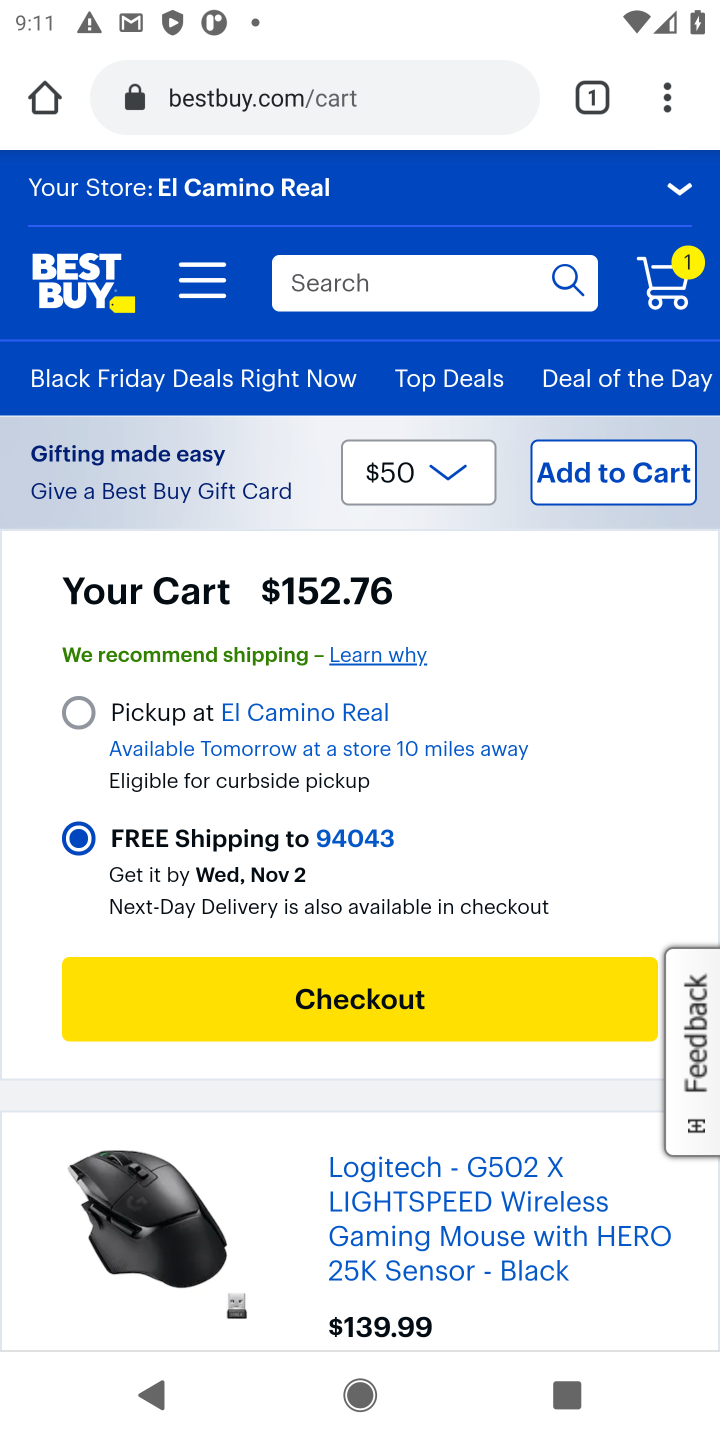
Step 32: click (408, 999)
Your task to perform on an android device: Show the shopping cart on bestbuy.com. Add logitech g502 to the cart on bestbuy.com, then select checkout. Image 33: 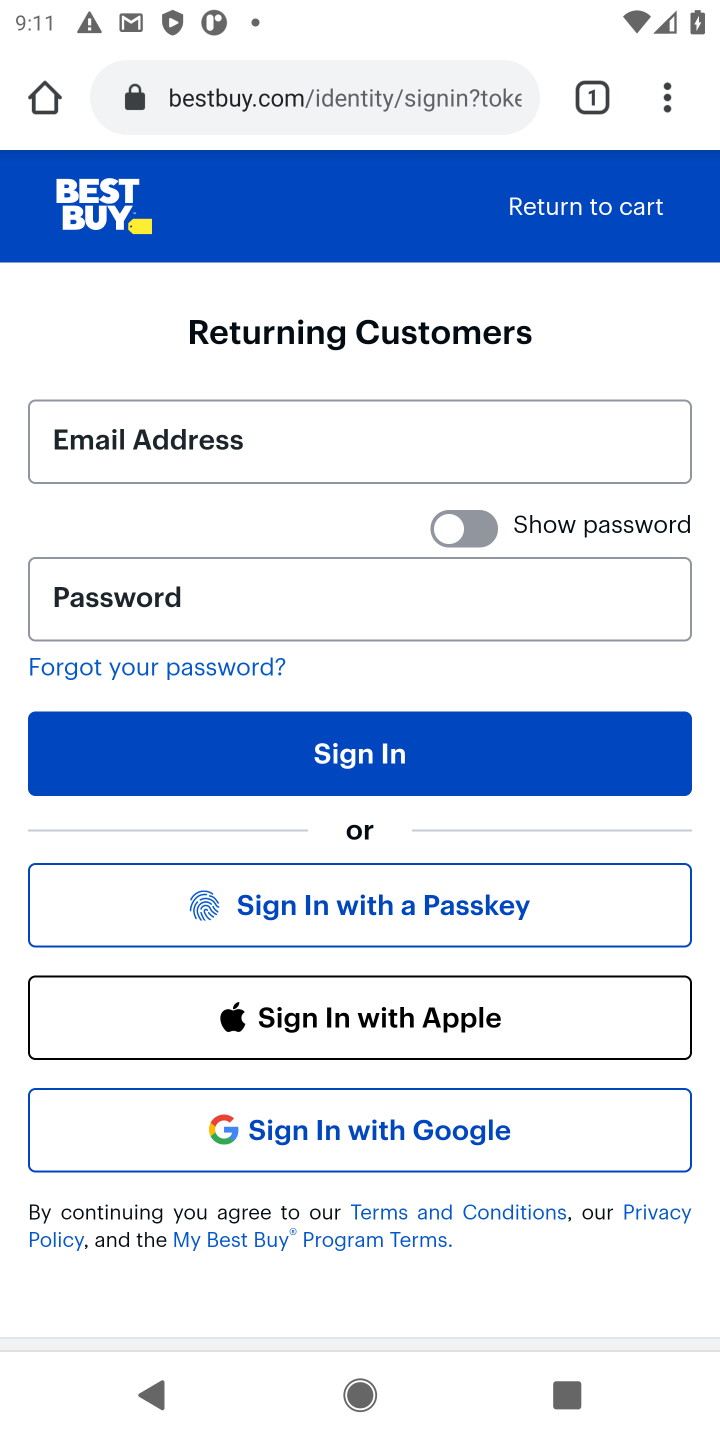
Step 33: task complete